Your task to perform on an android device: Search for the best books of all time on Goodreads Image 0: 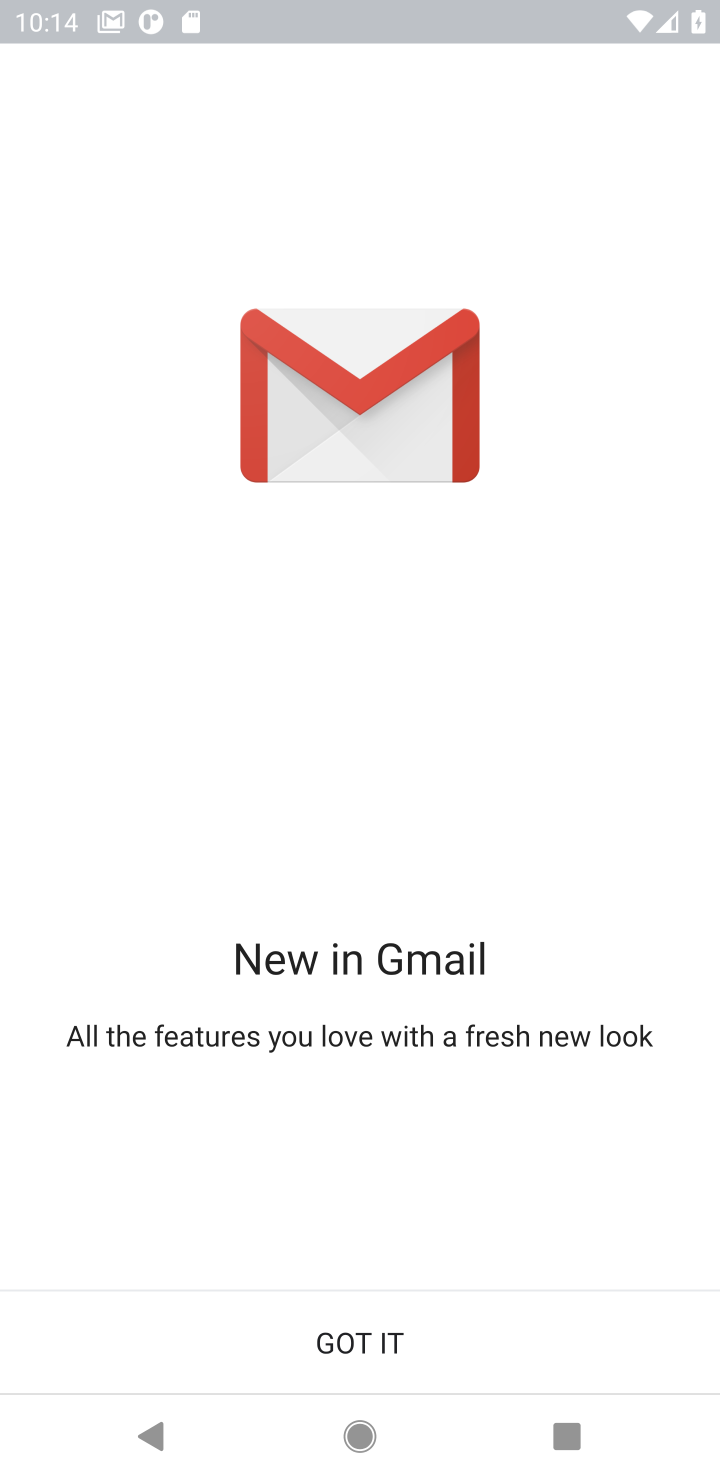
Step 0: press home button
Your task to perform on an android device: Search for the best books of all time on Goodreads Image 1: 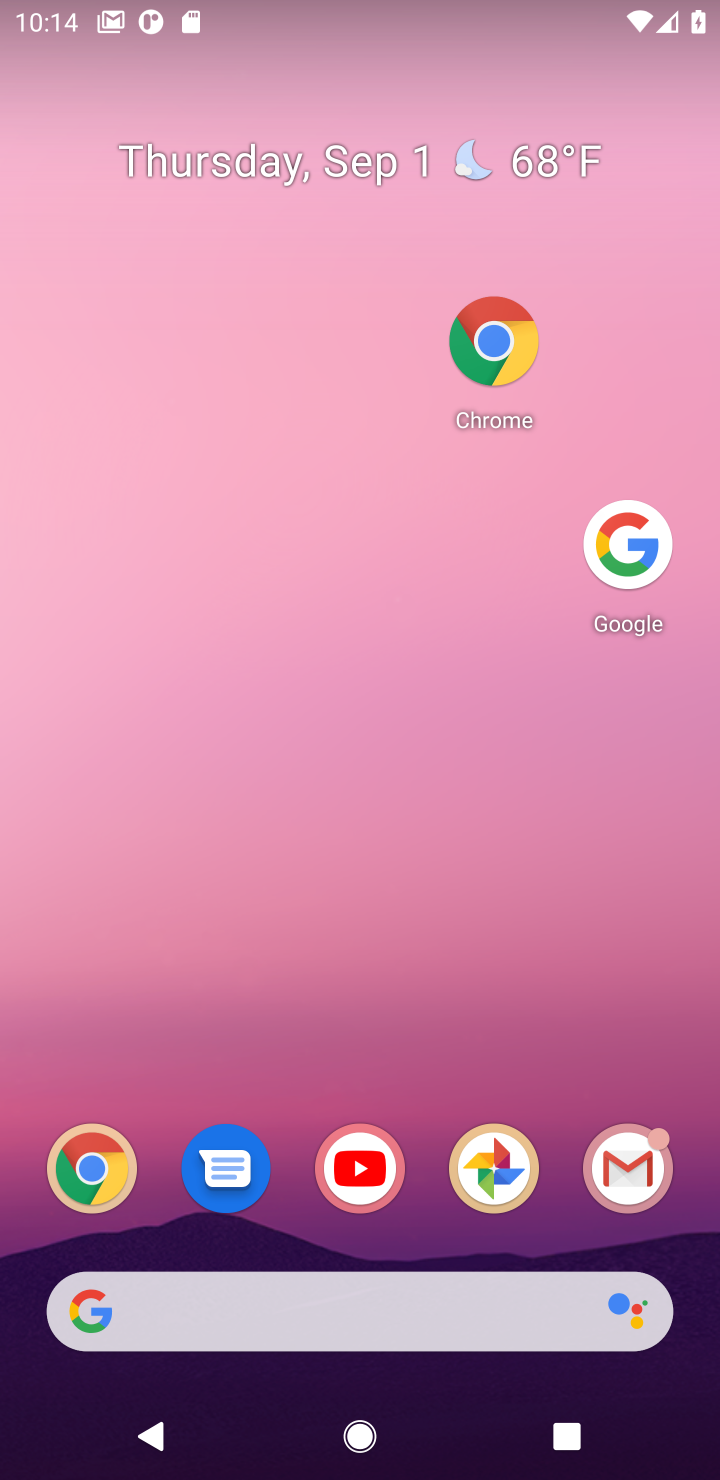
Step 1: click (427, 316)
Your task to perform on an android device: Search for the best books of all time on Goodreads Image 2: 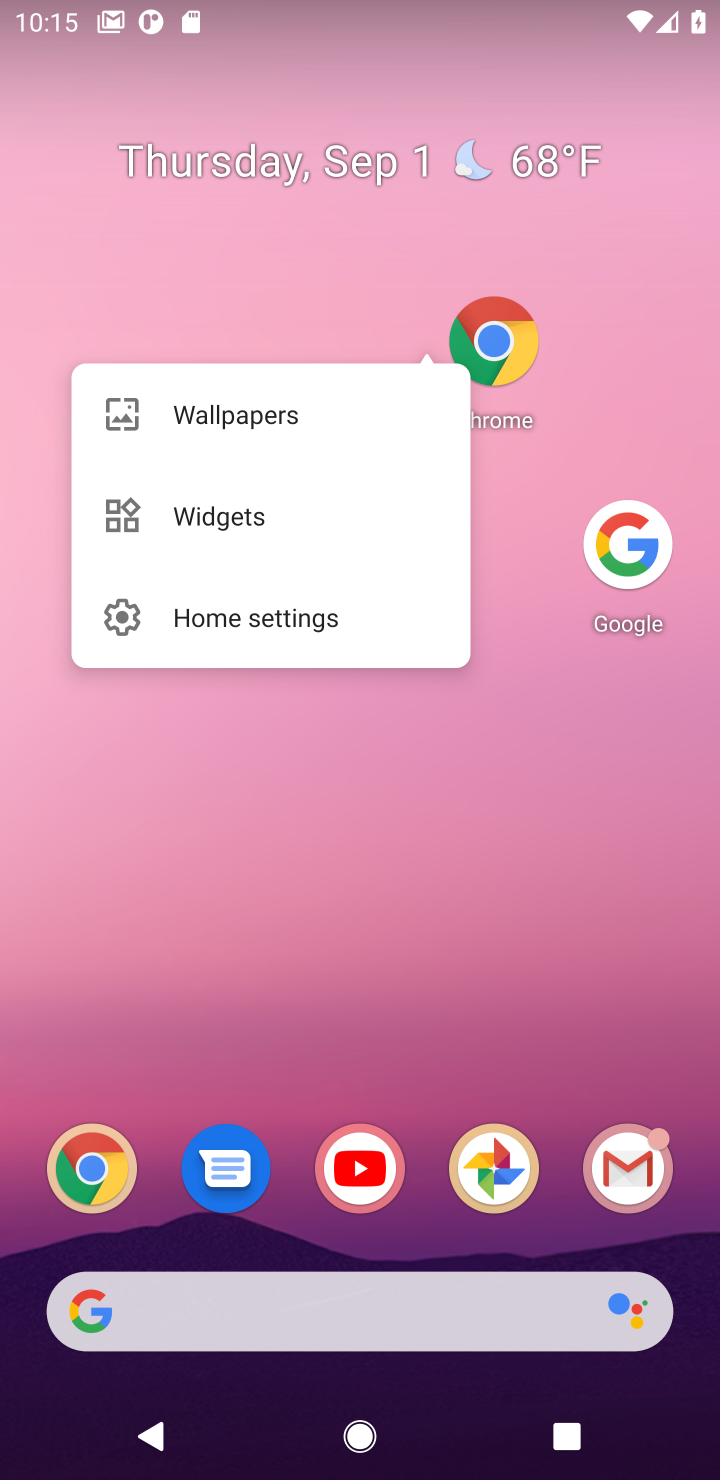
Step 2: click (633, 517)
Your task to perform on an android device: Search for the best books of all time on Goodreads Image 3: 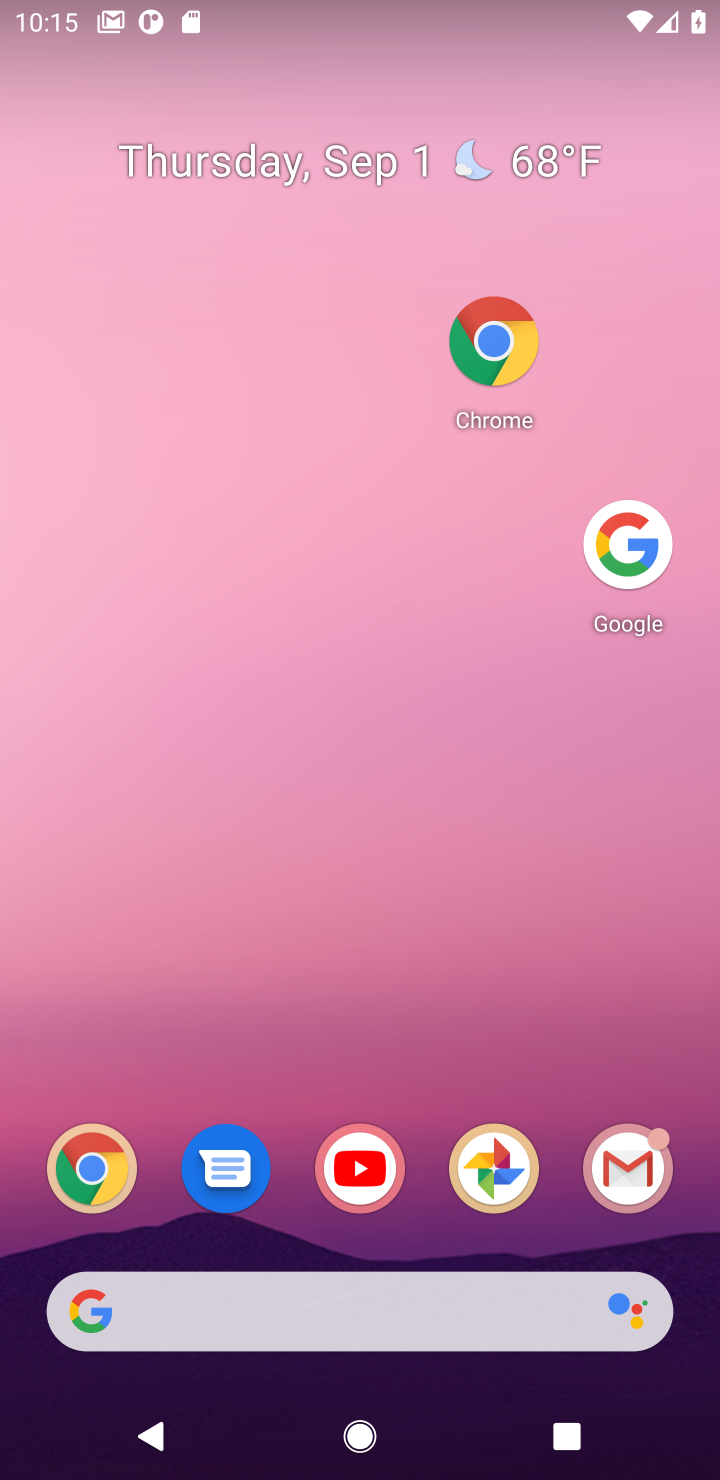
Step 3: click (629, 549)
Your task to perform on an android device: Search for the best books of all time on Goodreads Image 4: 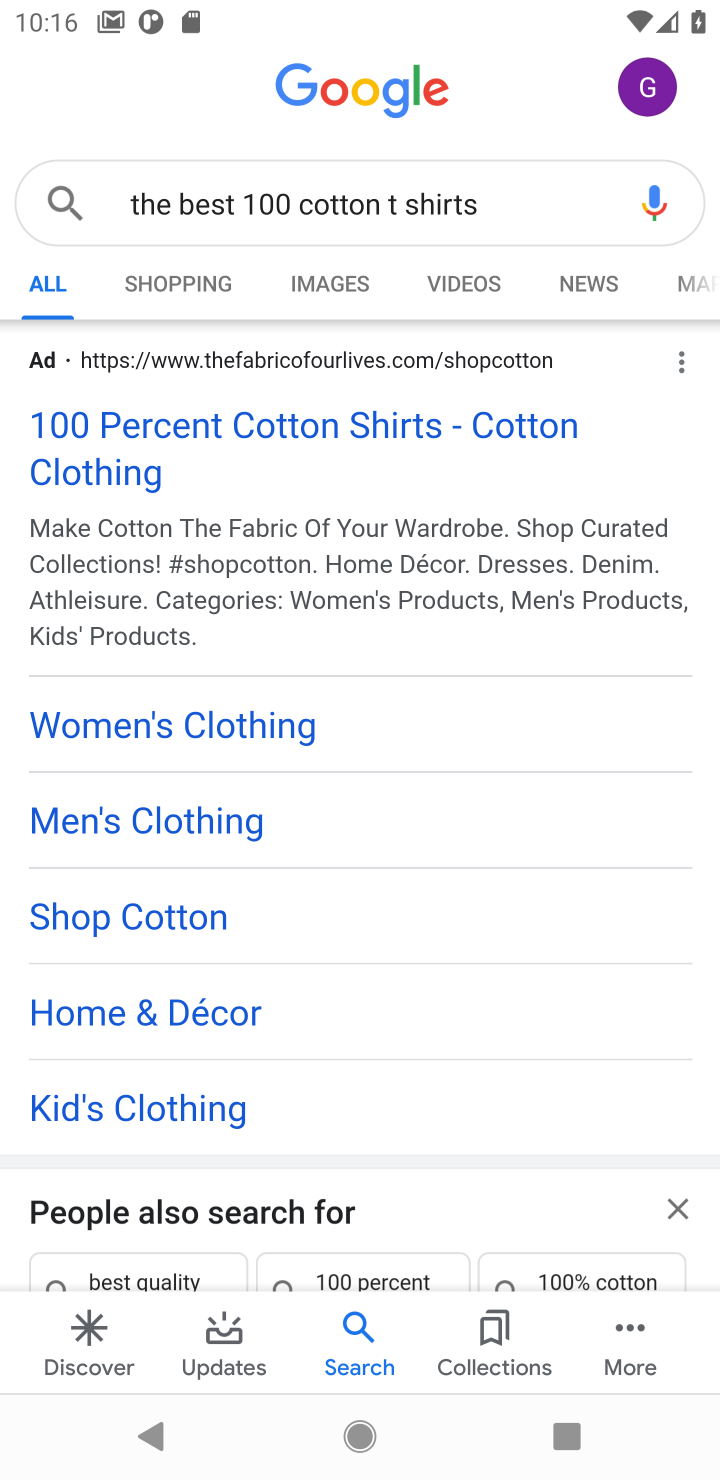
Step 4: click (265, 416)
Your task to perform on an android device: Search for the best books of all time on Goodreads Image 5: 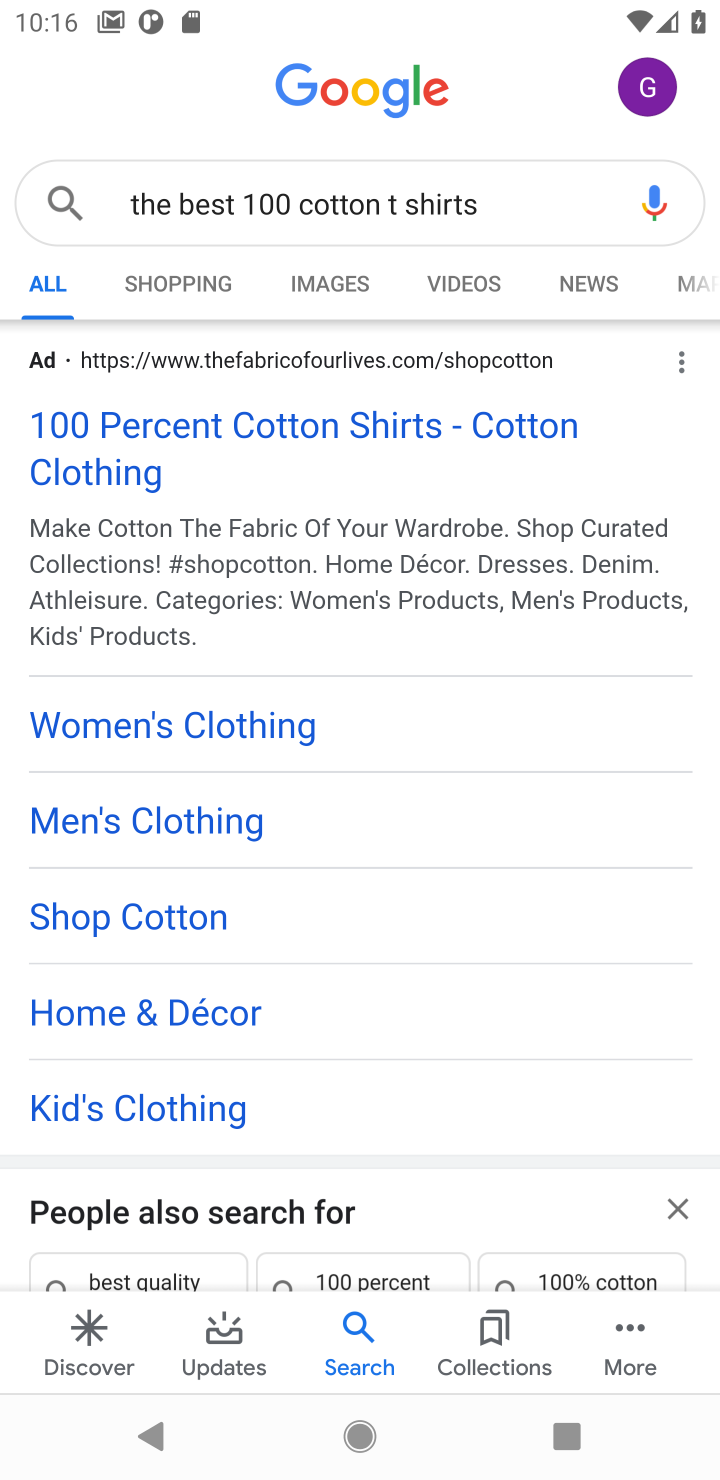
Step 5: click (318, 414)
Your task to perform on an android device: Search for the best books of all time on Goodreads Image 6: 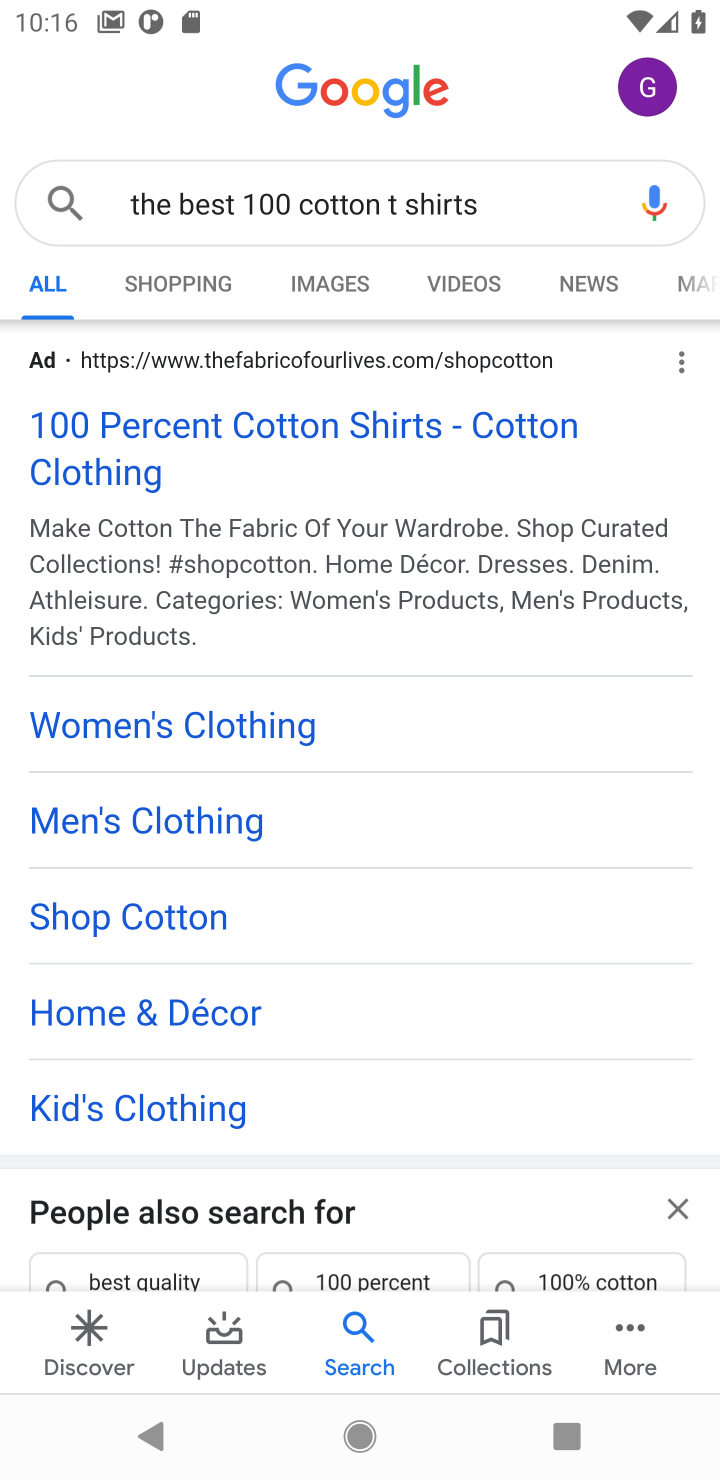
Step 6: click (287, 426)
Your task to perform on an android device: Search for the best books of all time on Goodreads Image 7: 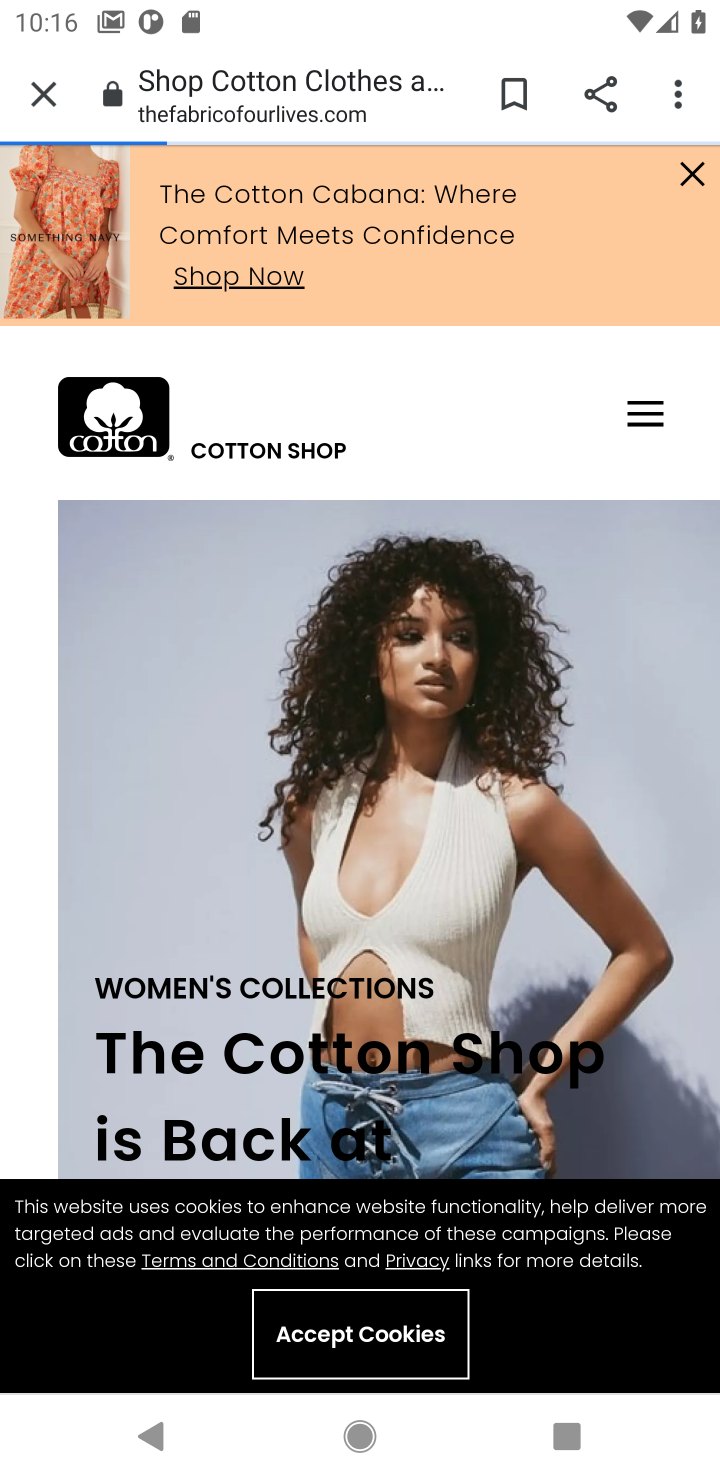
Step 7: click (45, 96)
Your task to perform on an android device: Search for the best books of all time on Goodreads Image 8: 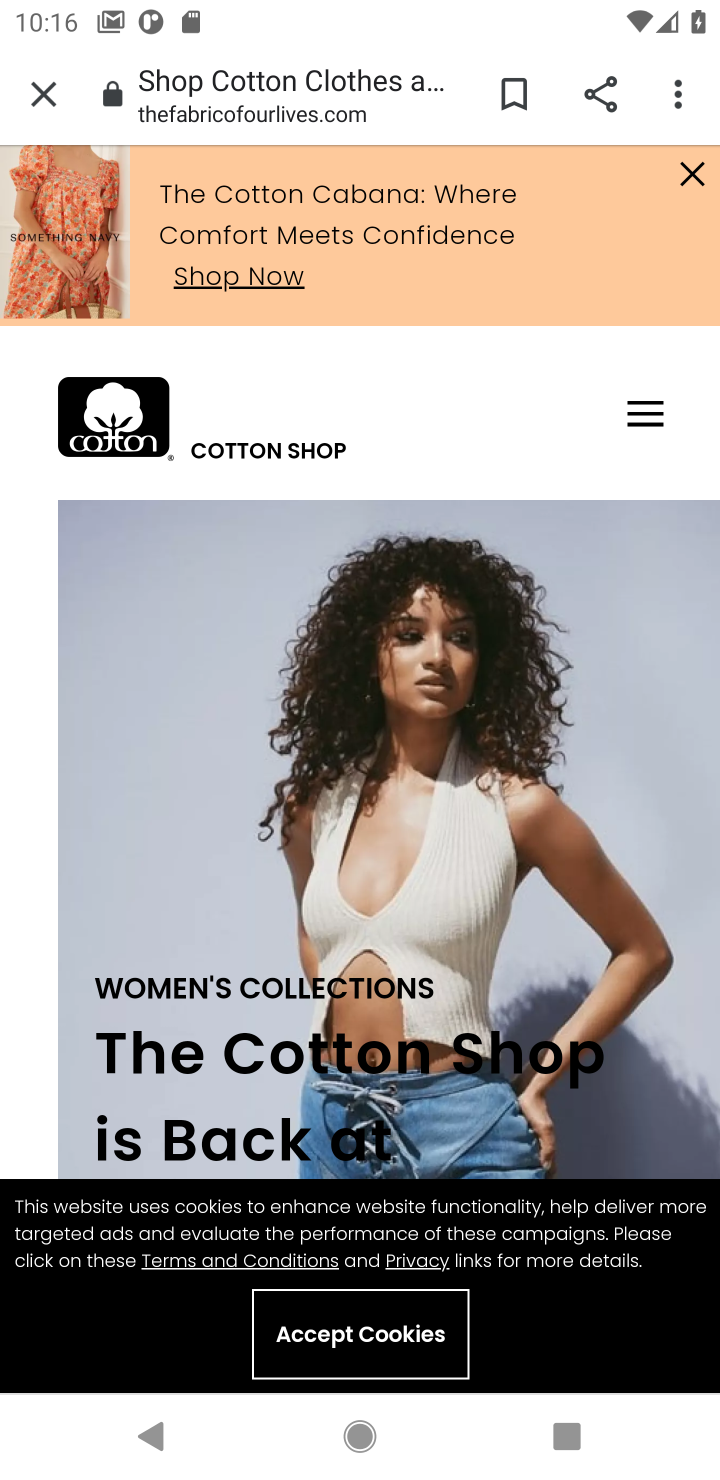
Step 8: click (683, 110)
Your task to perform on an android device: Search for the best books of all time on Goodreads Image 9: 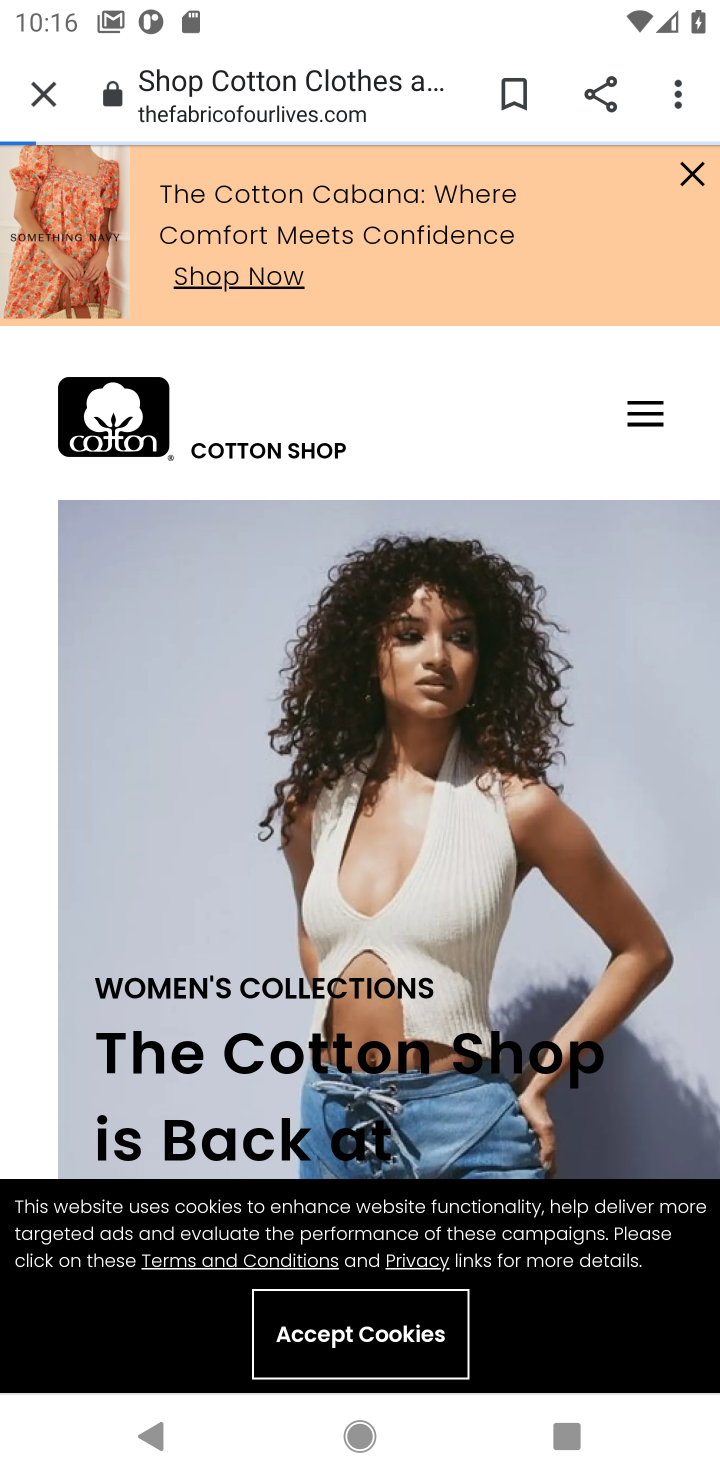
Step 9: click (679, 84)
Your task to perform on an android device: Search for the best books of all time on Goodreads Image 10: 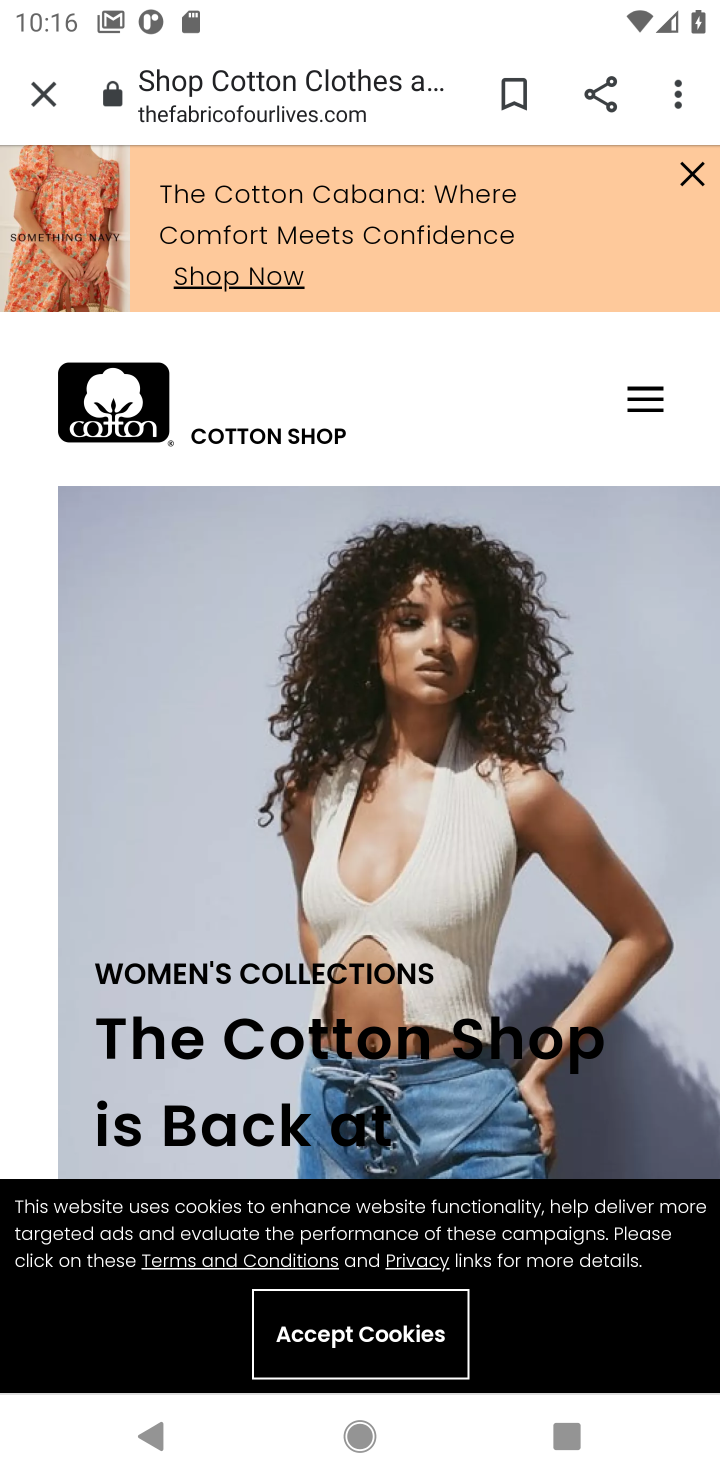
Step 10: click (701, 184)
Your task to perform on an android device: Search for the best books of all time on Goodreads Image 11: 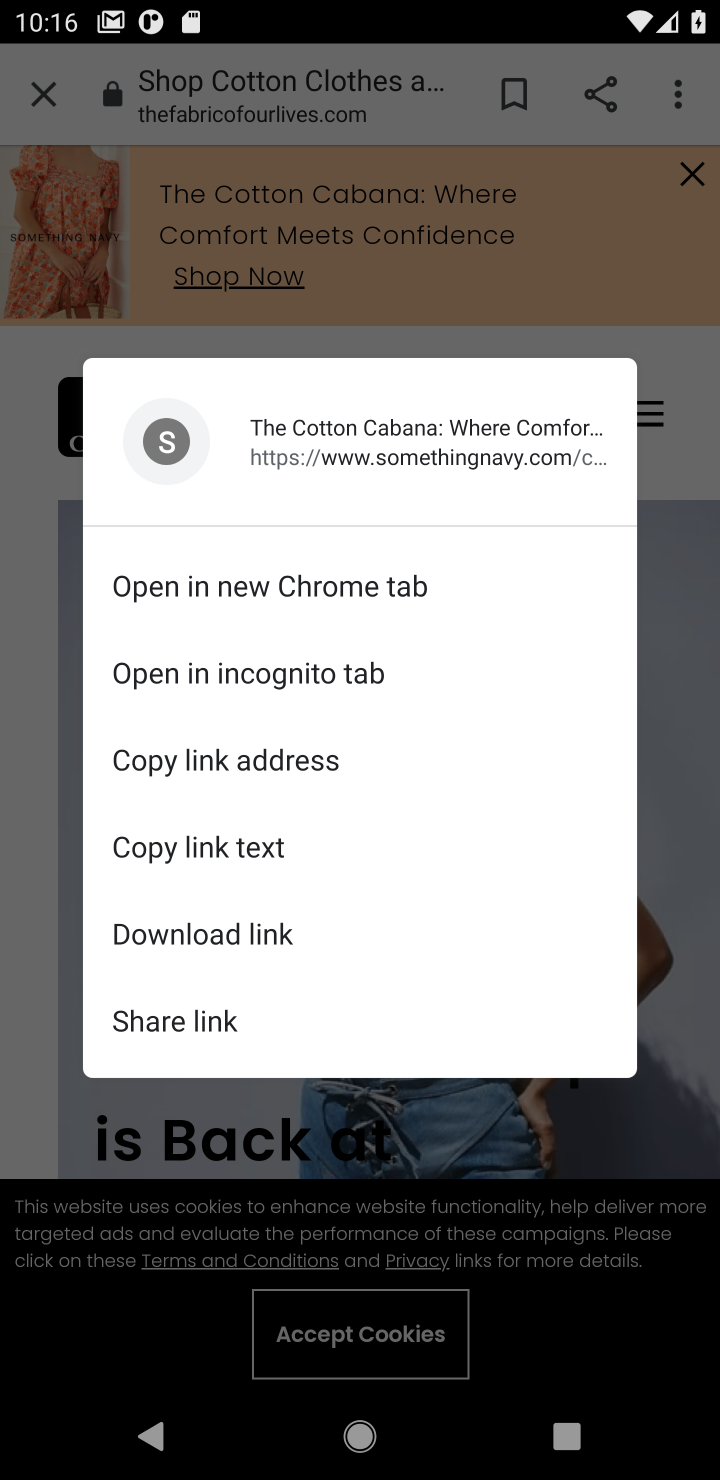
Step 11: click (329, 584)
Your task to perform on an android device: Search for the best books of all time on Goodreads Image 12: 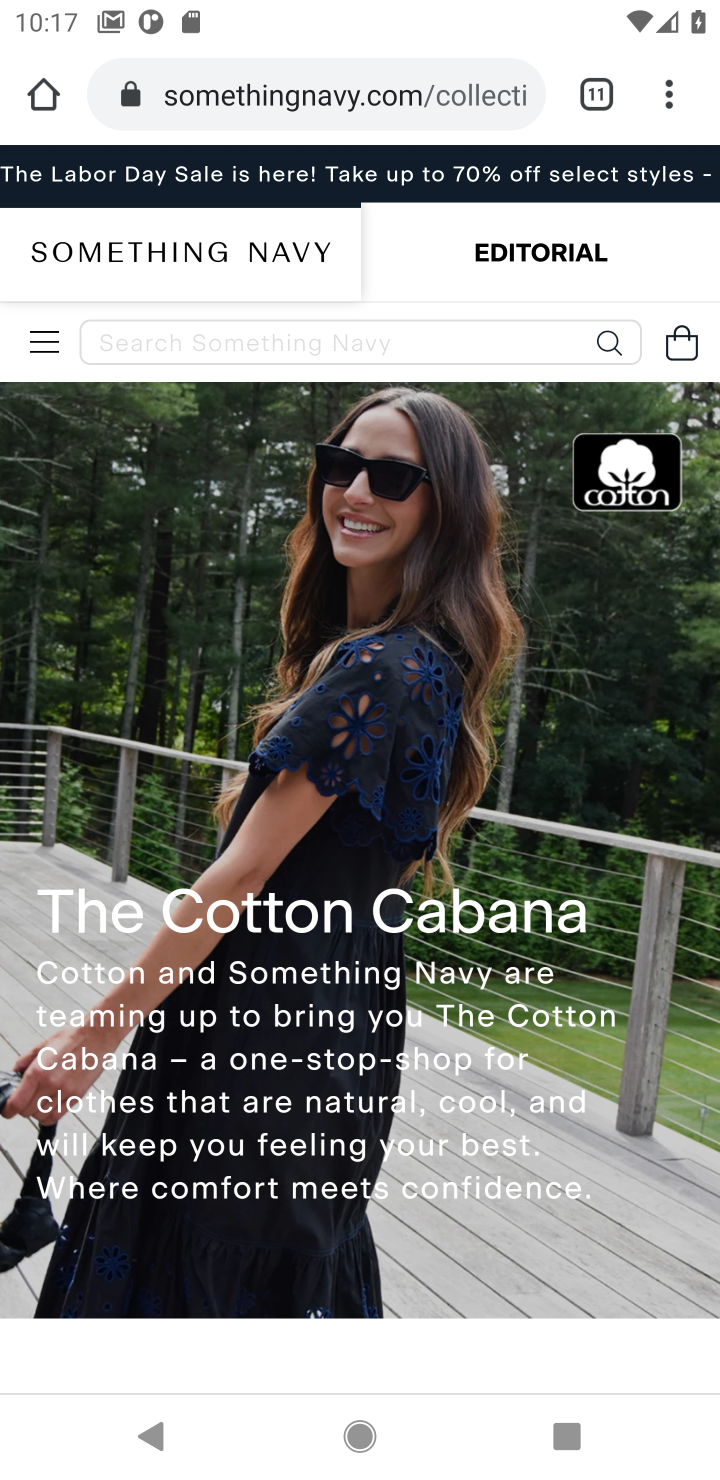
Step 12: click (667, 85)
Your task to perform on an android device: Search for the best books of all time on Goodreads Image 13: 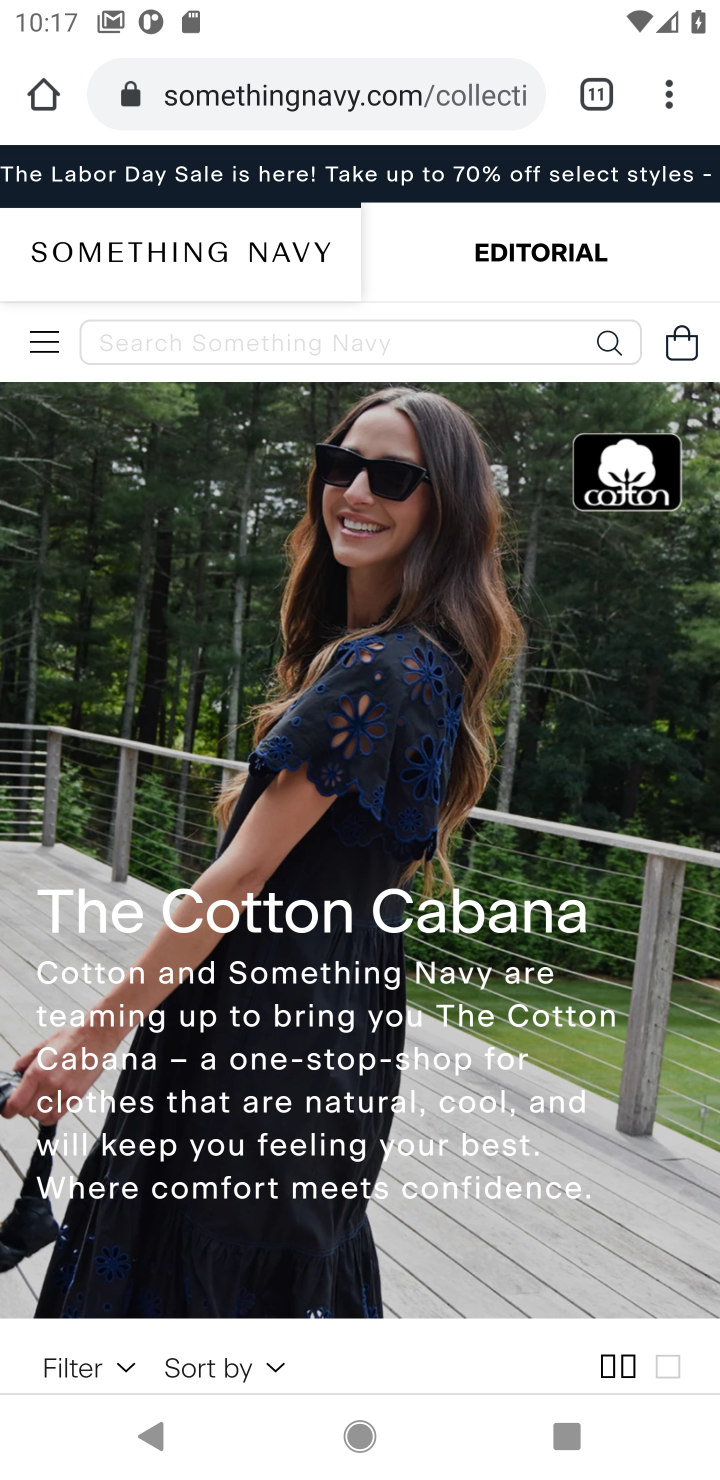
Step 13: click (686, 91)
Your task to perform on an android device: Search for the best books of all time on Goodreads Image 14: 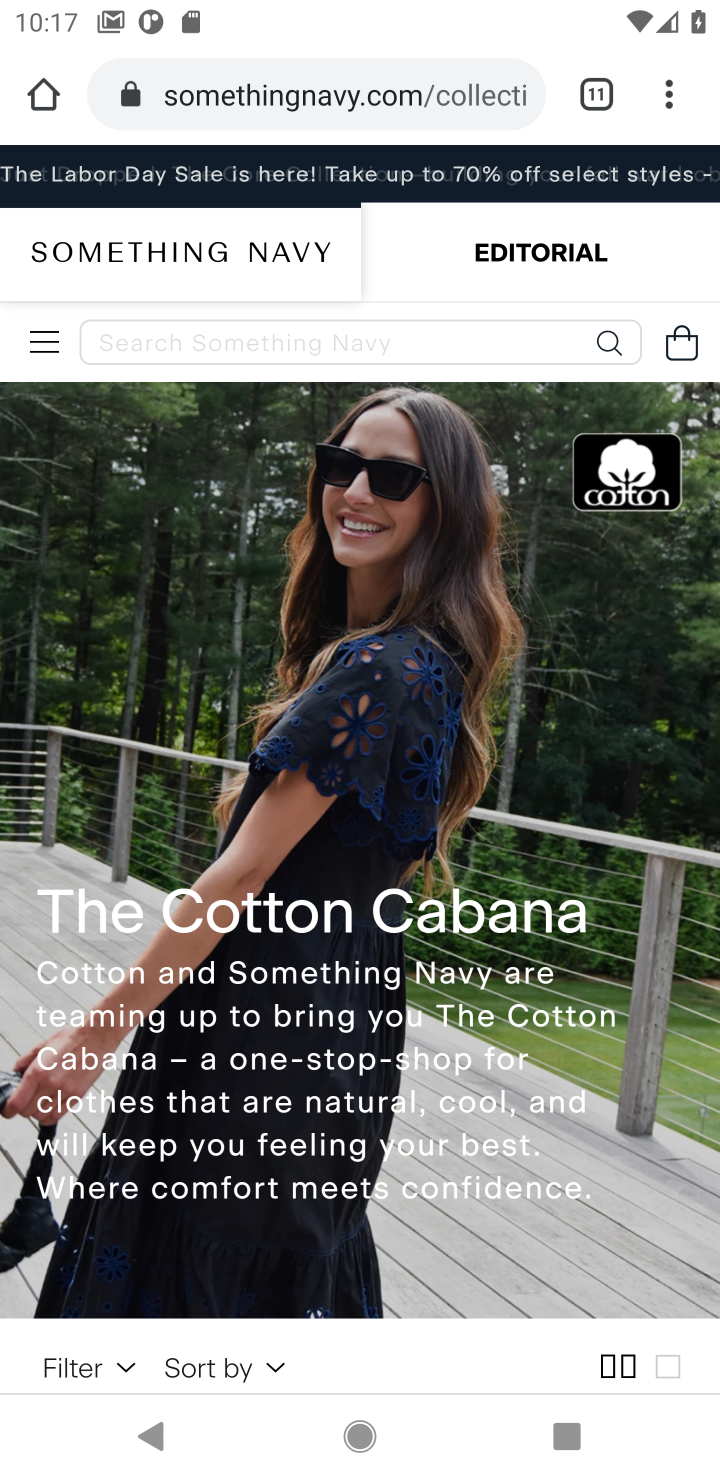
Step 14: press home button
Your task to perform on an android device: Search for the best books of all time on Goodreads Image 15: 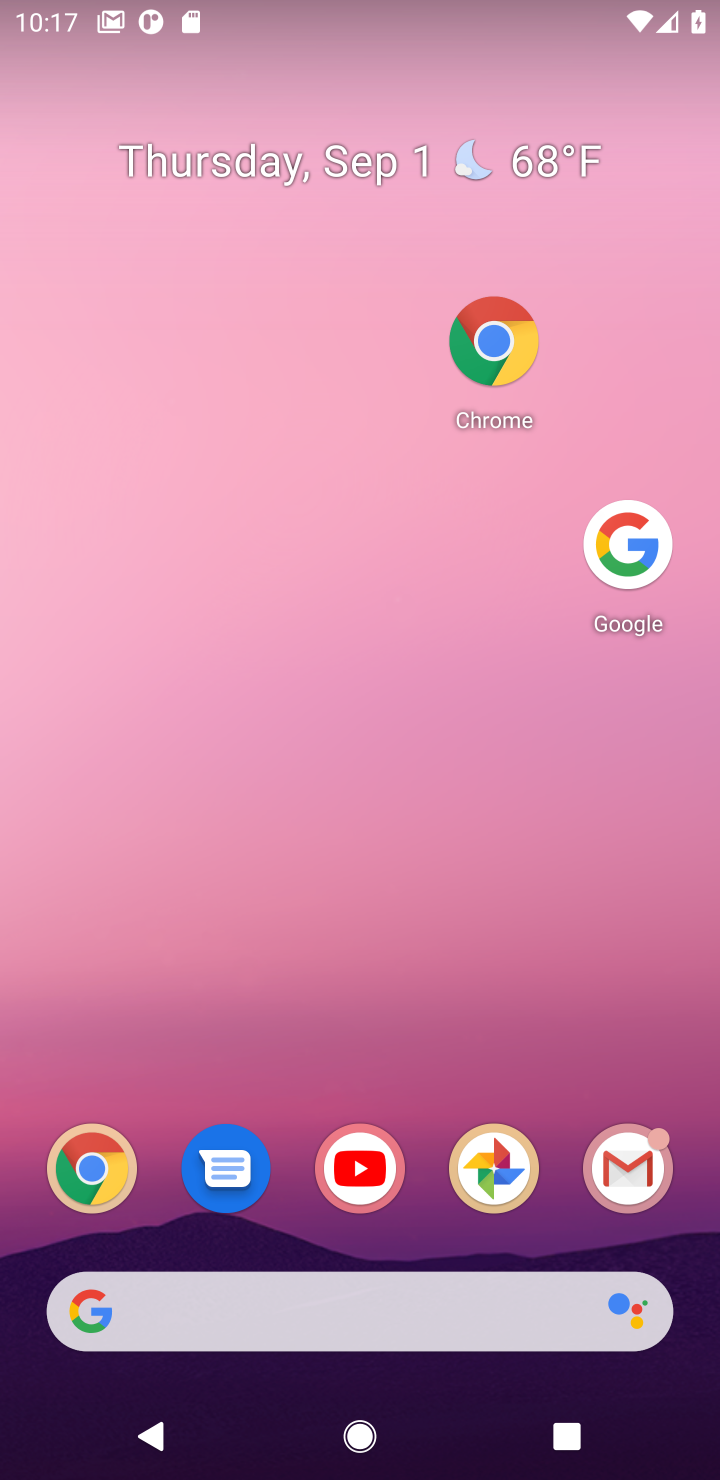
Step 15: click (628, 533)
Your task to perform on an android device: Search for the best books of all time on Goodreads Image 16: 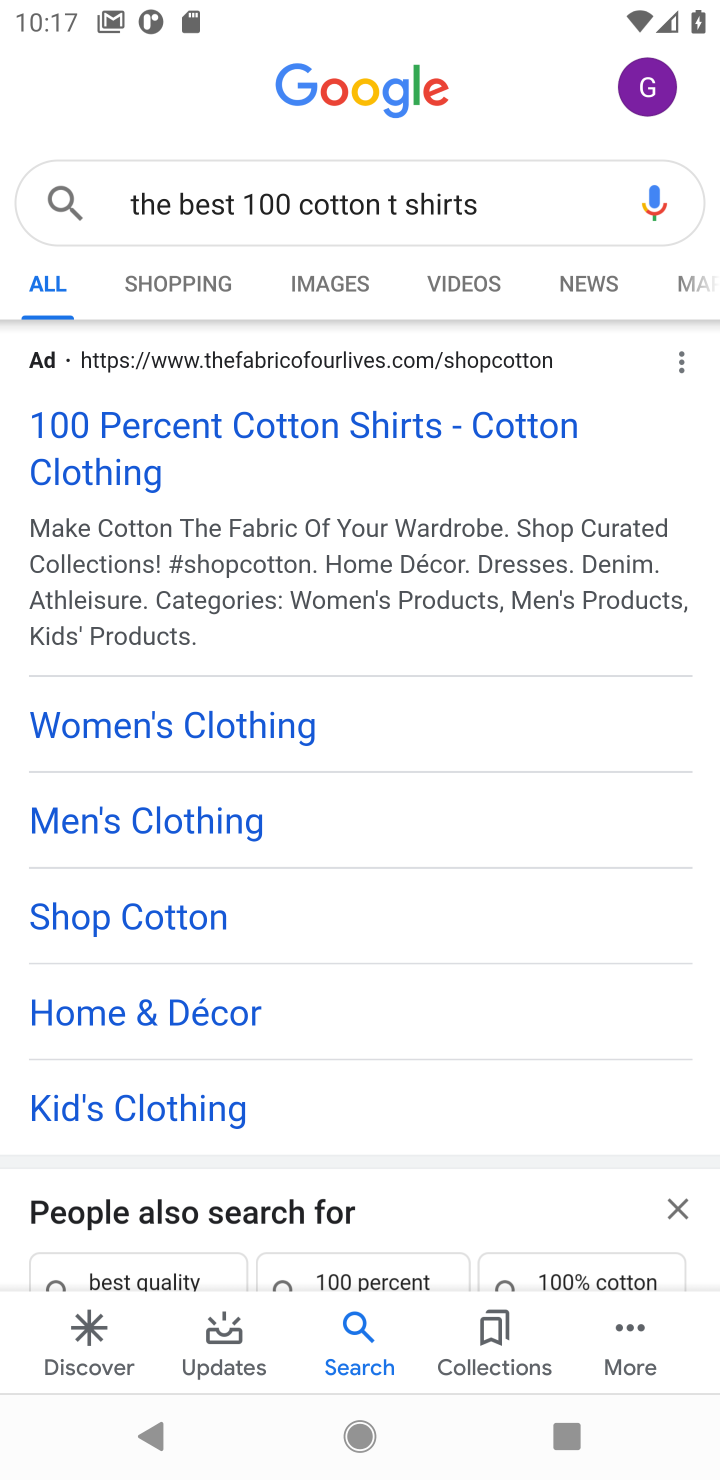
Step 16: click (541, 217)
Your task to perform on an android device: Search for the best books of all time on Goodreads Image 17: 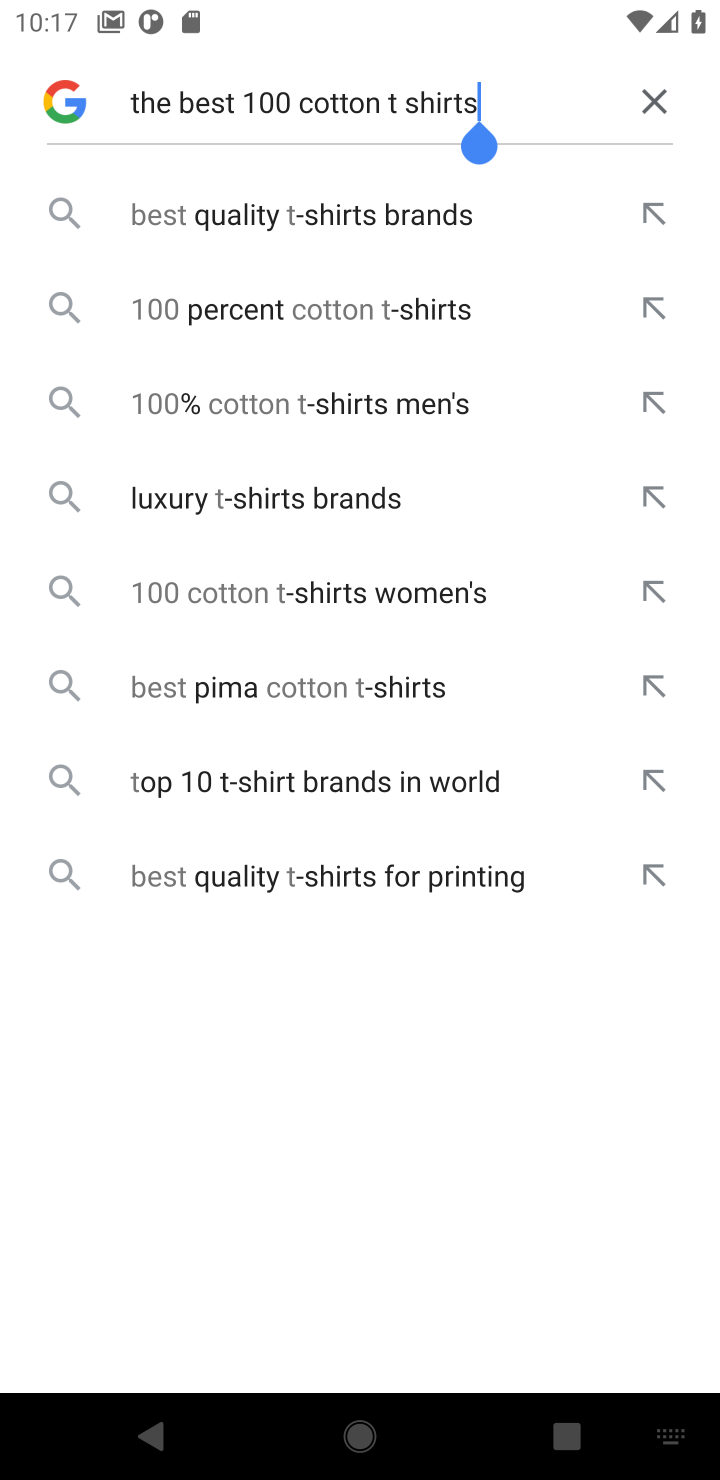
Step 17: click (671, 90)
Your task to perform on an android device: Search for the best books of all time on Goodreads Image 18: 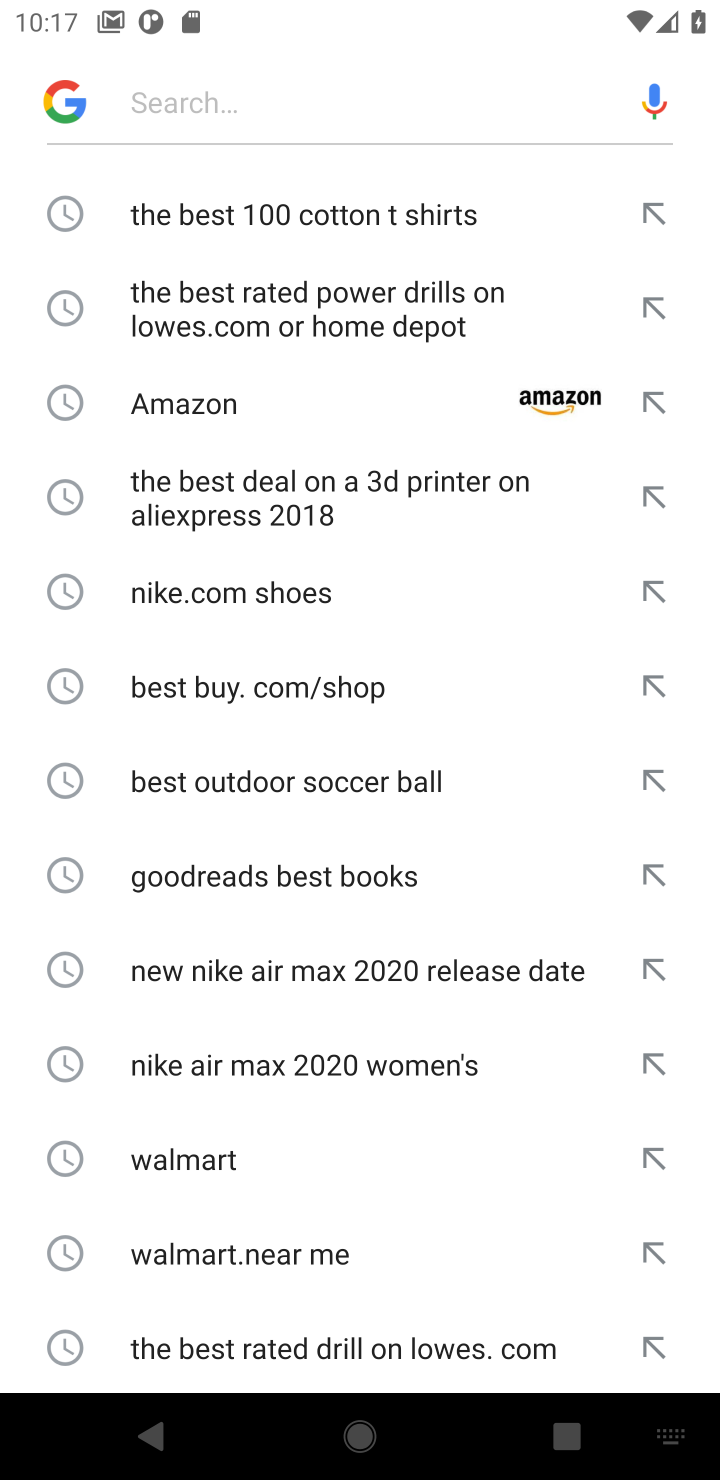
Step 18: click (345, 95)
Your task to perform on an android device: Search for the best books of all time on Goodreads Image 19: 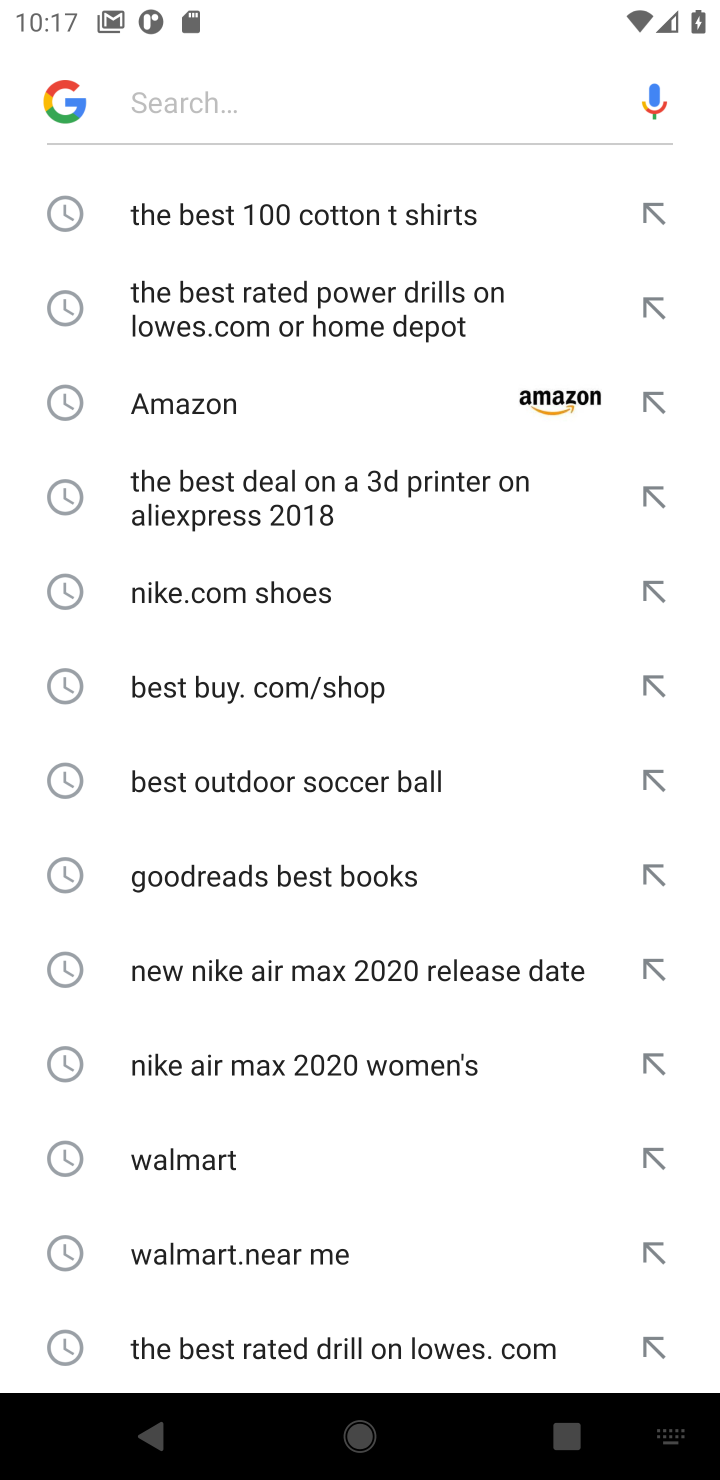
Step 19: type "Goodreads "
Your task to perform on an android device: Search for the best books of all time on Goodreads Image 20: 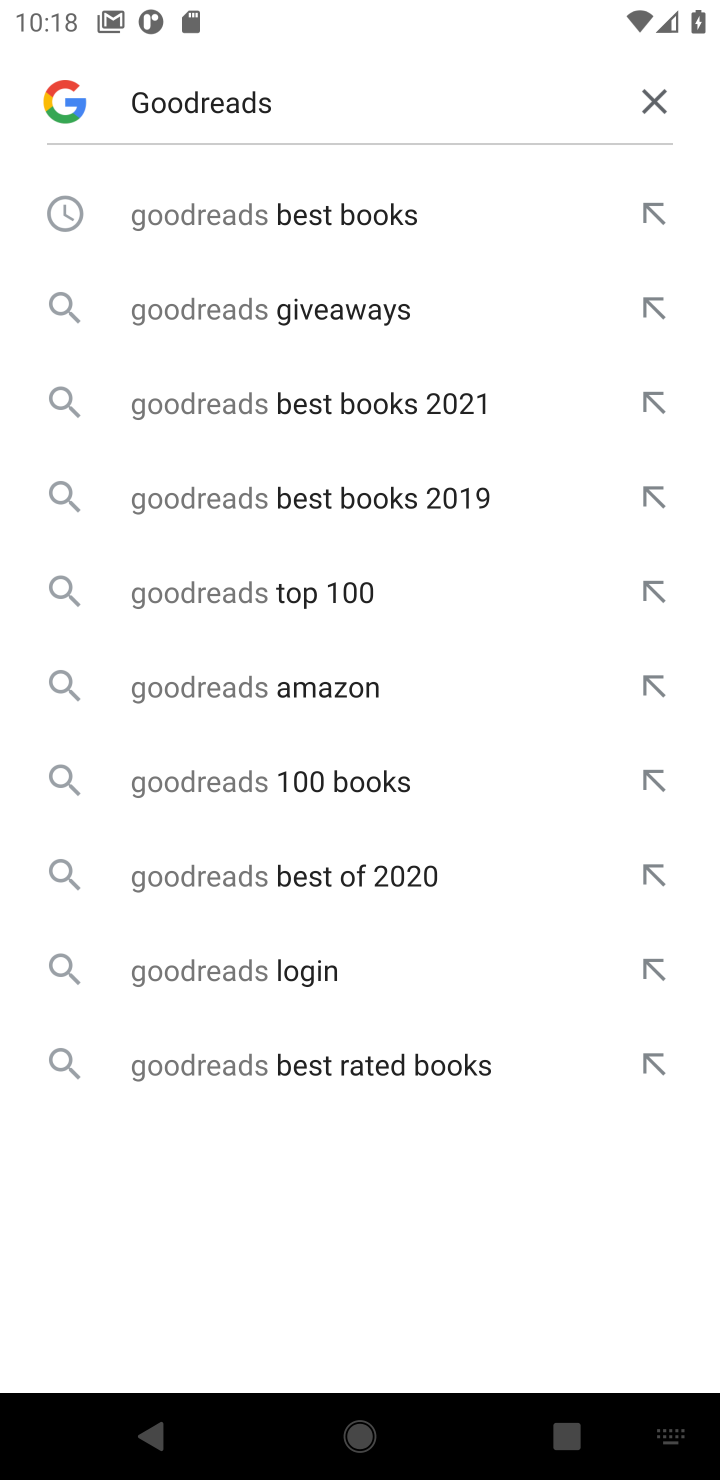
Step 20: click (235, 205)
Your task to perform on an android device: Search for the best books of all time on Goodreads Image 21: 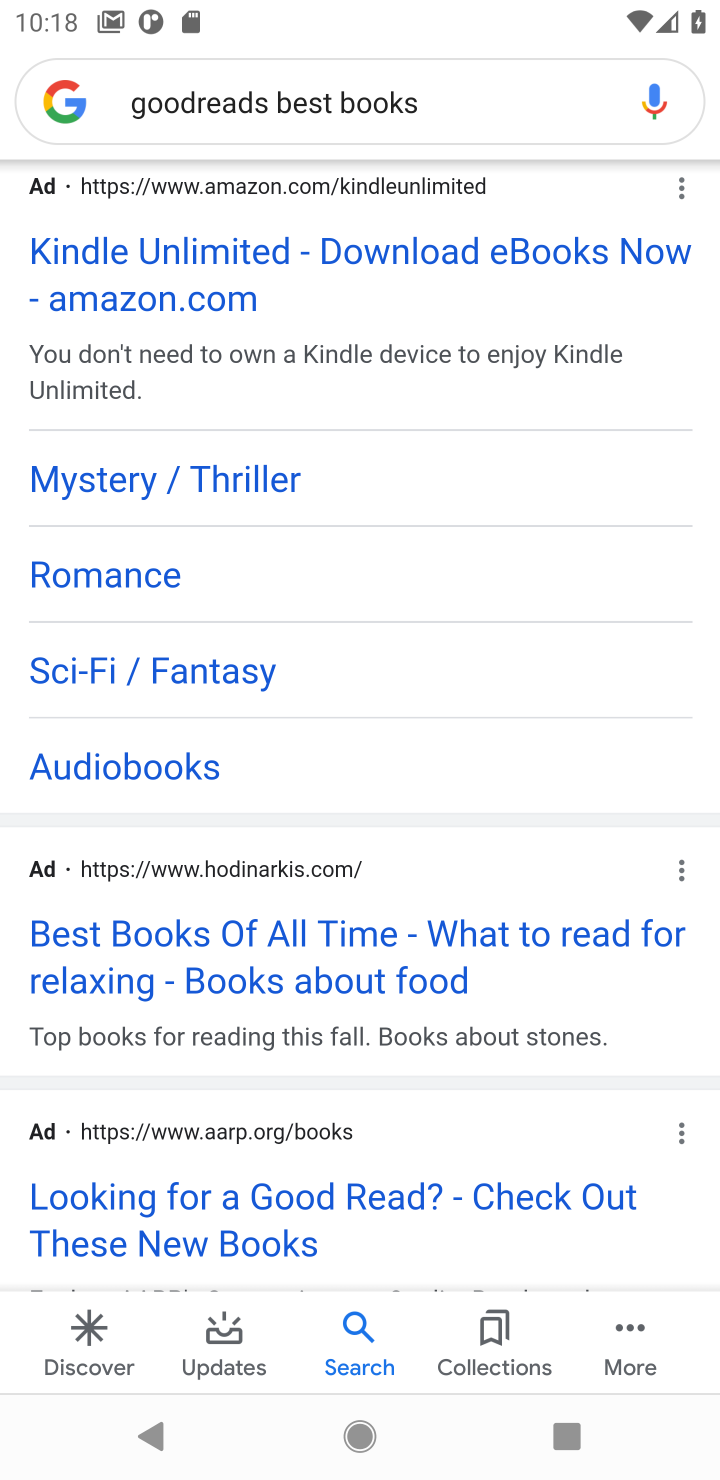
Step 21: drag from (221, 300) to (234, 1262)
Your task to perform on an android device: Search for the best books of all time on Goodreads Image 22: 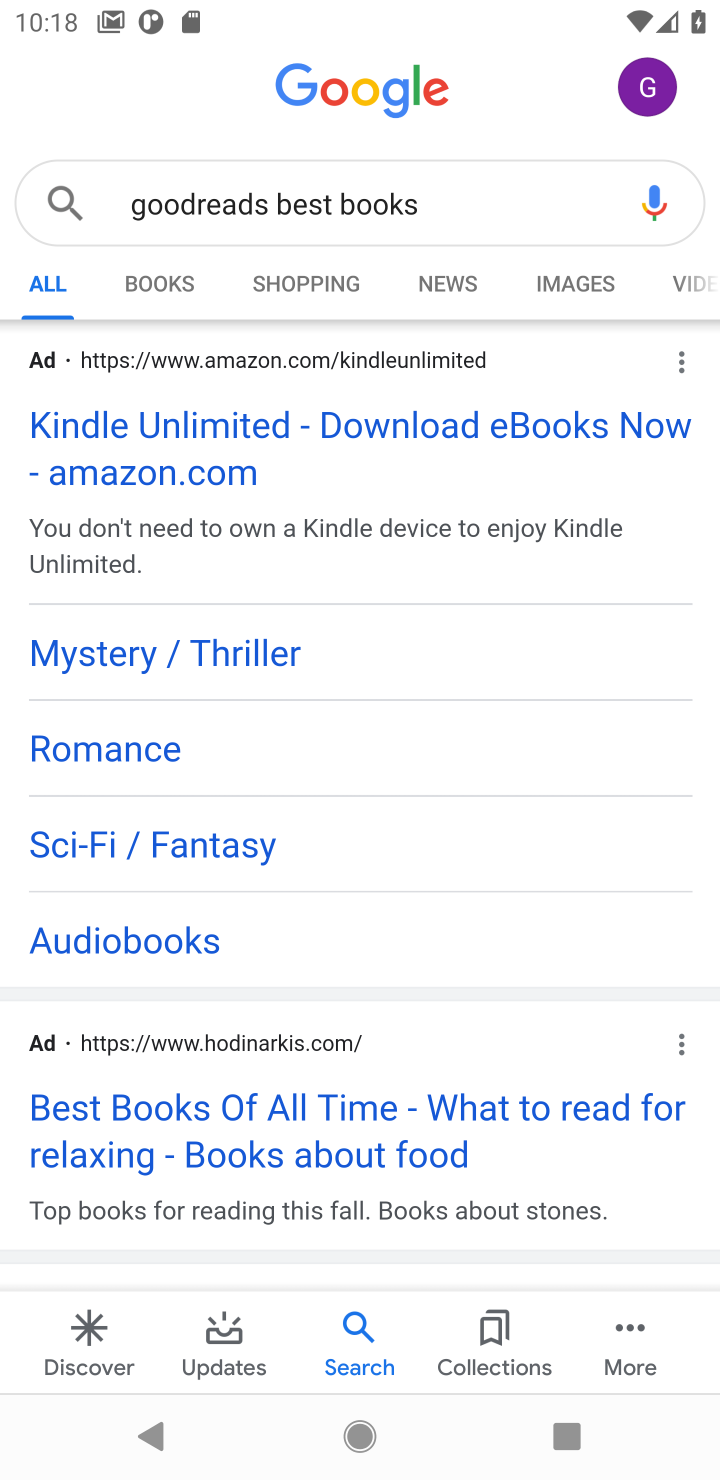
Step 22: click (498, 200)
Your task to perform on an android device: Search for the best books of all time on Goodreads Image 23: 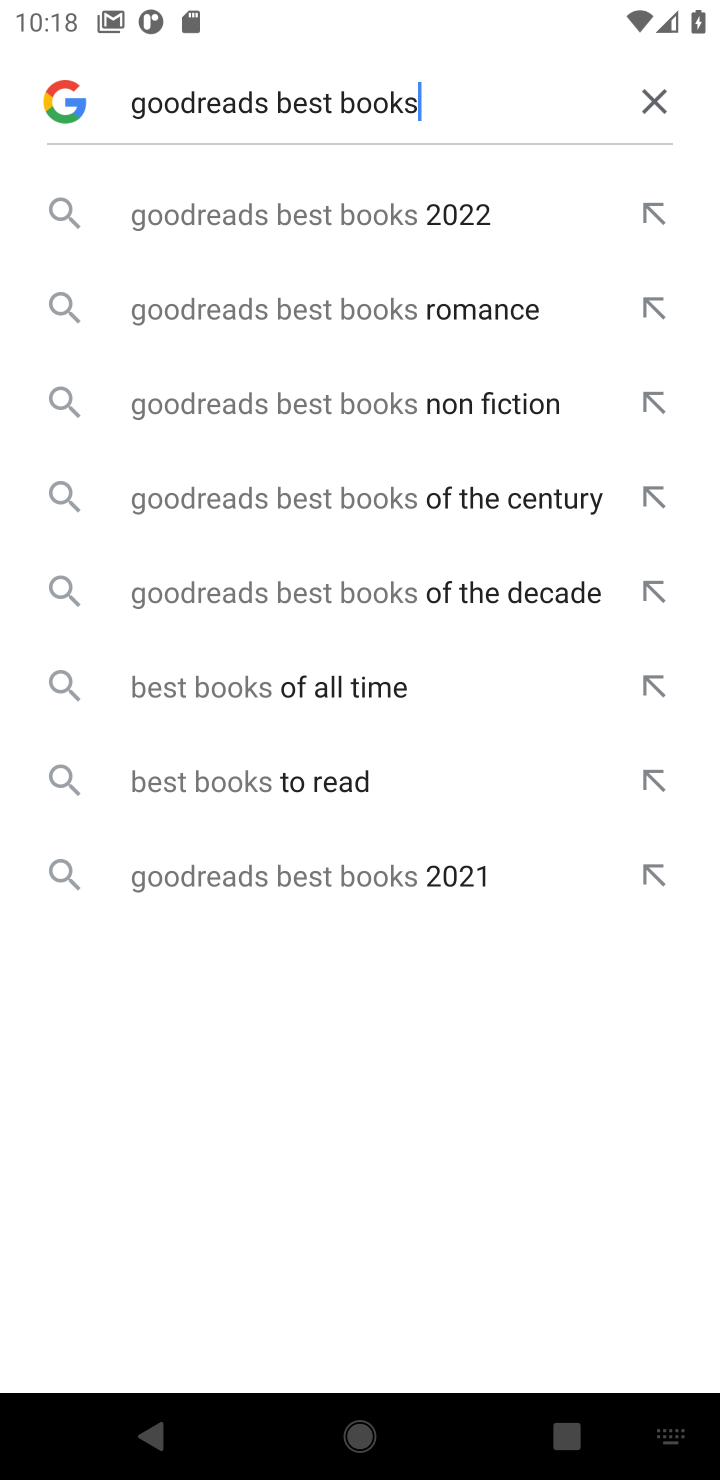
Step 23: drag from (263, 87) to (394, 105)
Your task to perform on an android device: Search for the best books of all time on Goodreads Image 24: 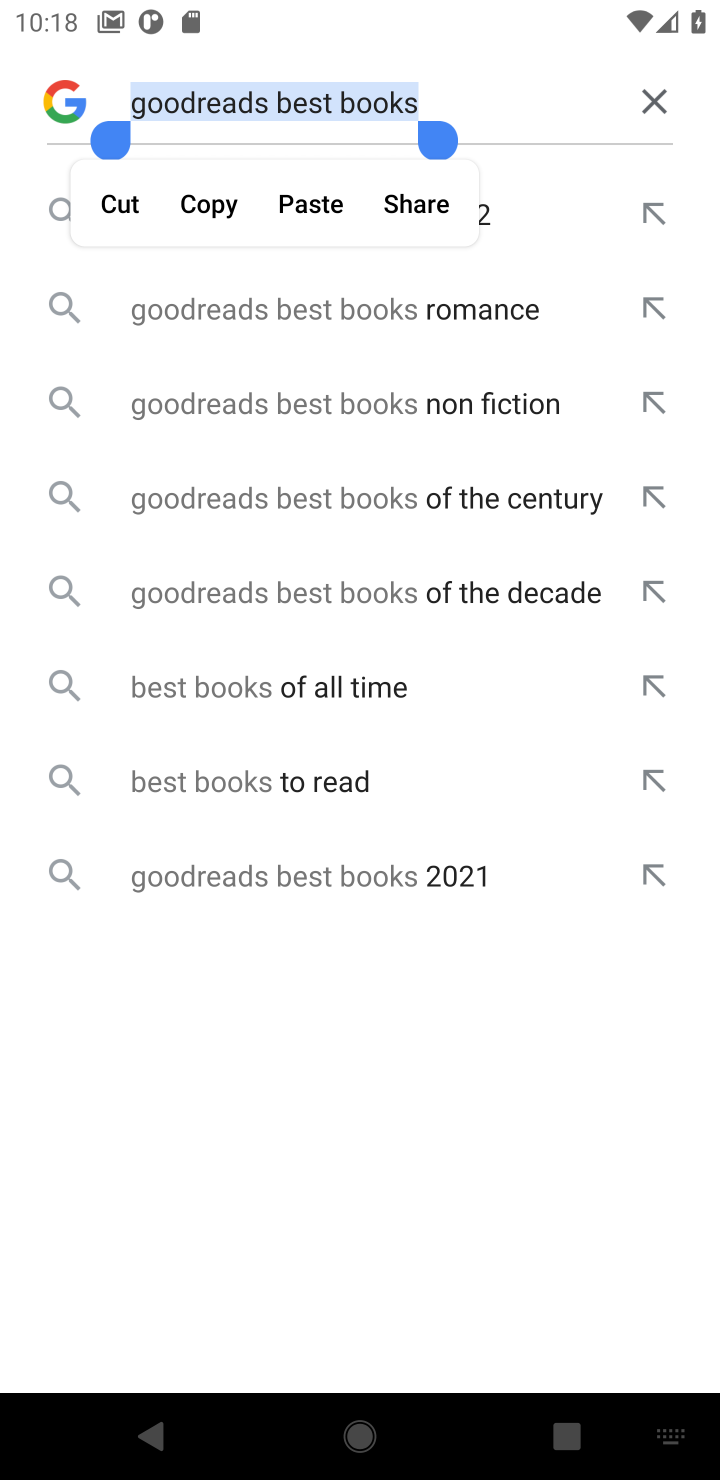
Step 24: click (116, 198)
Your task to perform on an android device: Search for the best books of all time on Goodreads Image 25: 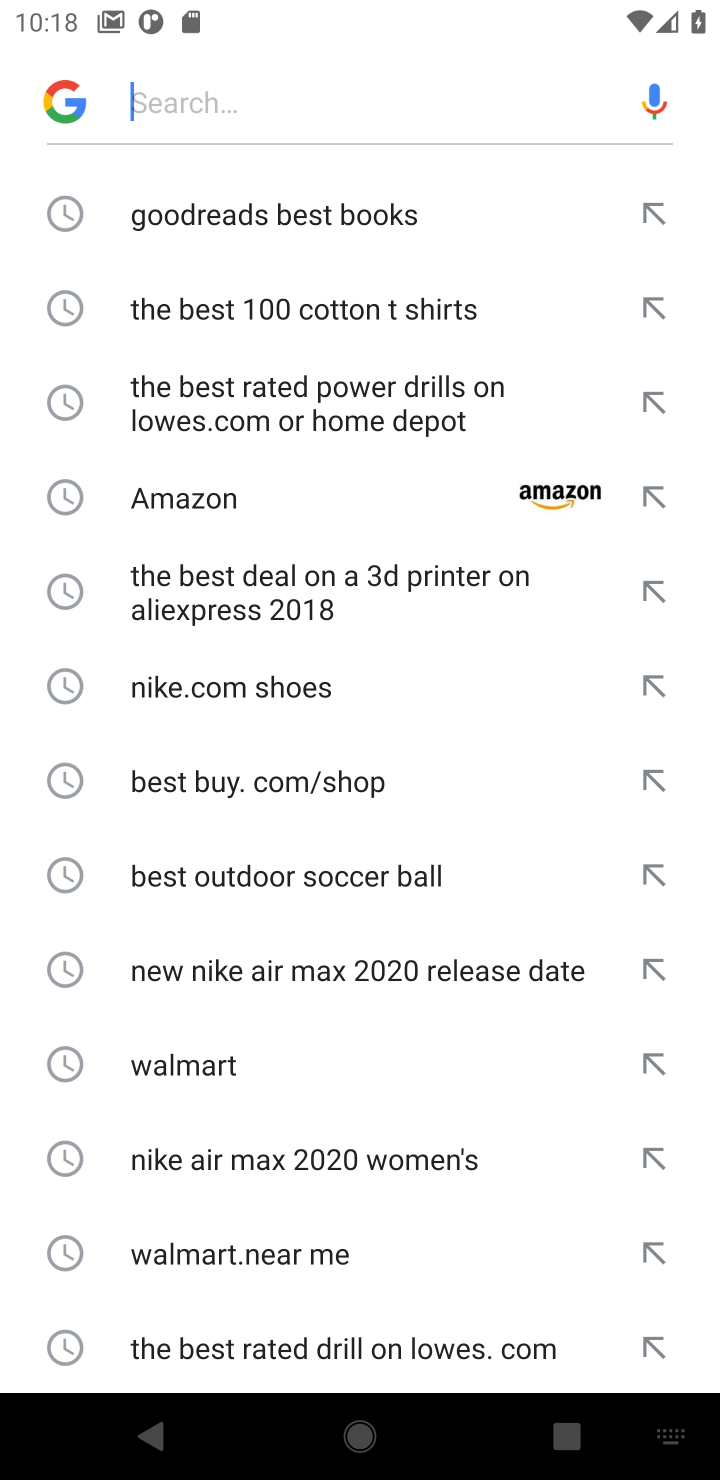
Step 25: click (317, 73)
Your task to perform on an android device: Search for the best books of all time on Goodreads Image 26: 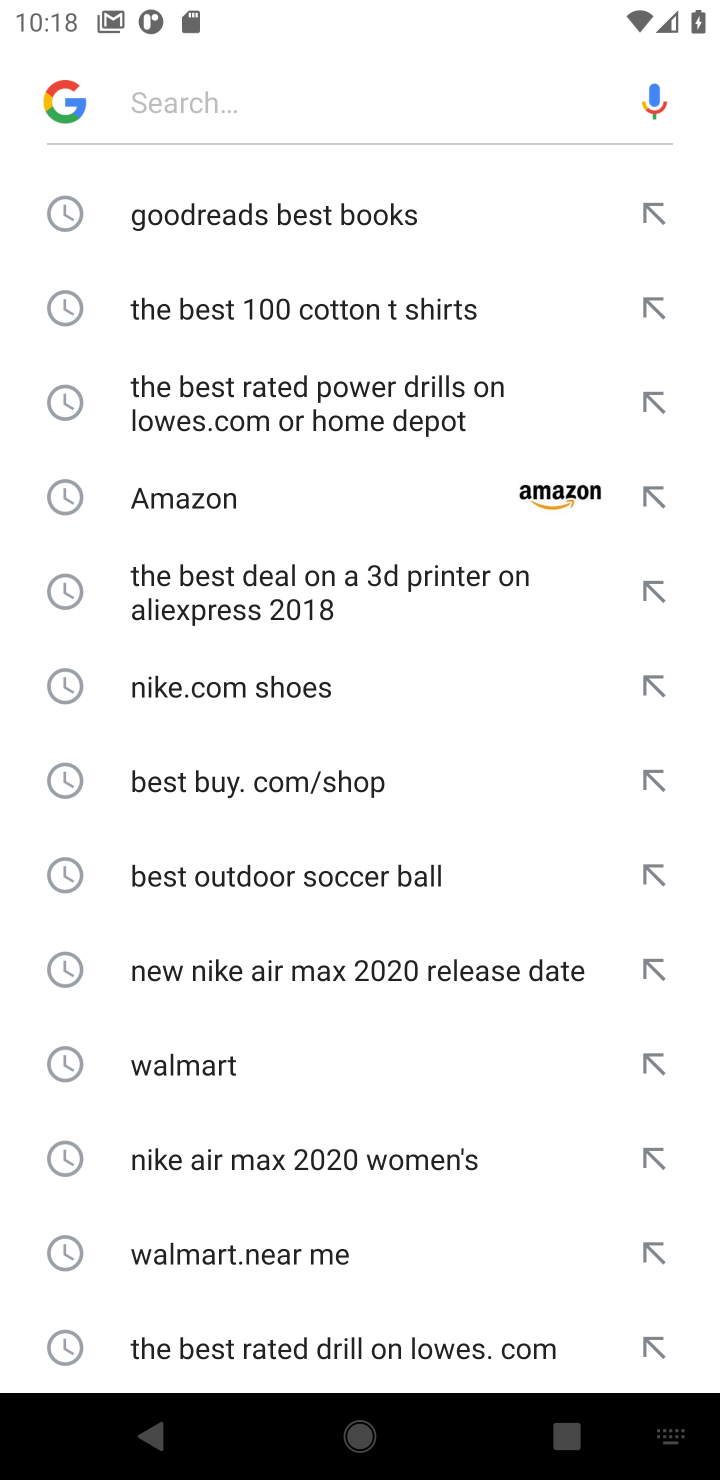
Step 26: type " Goodreads "
Your task to perform on an android device: Search for the best books of all time on Goodreads Image 27: 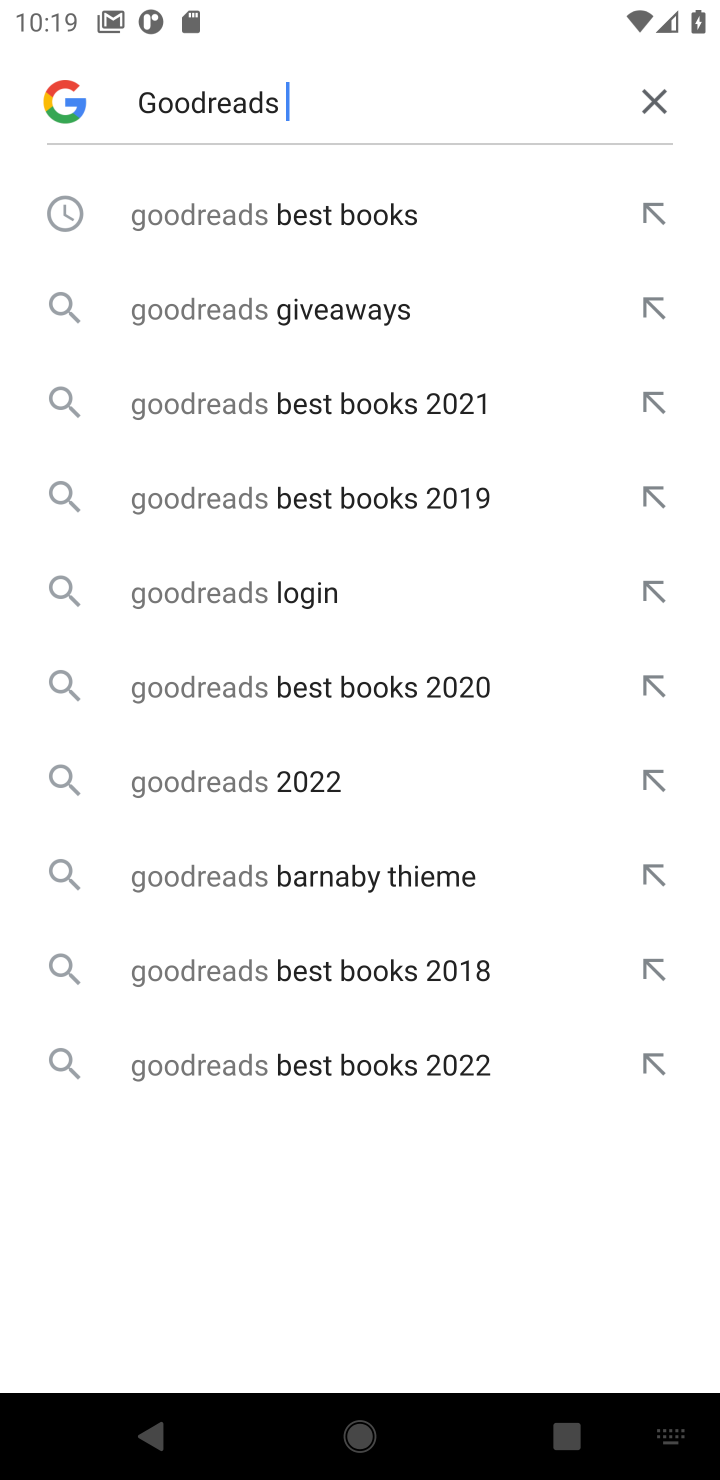
Step 27: click (231, 212)
Your task to perform on an android device: Search for the best books of all time on Goodreads Image 28: 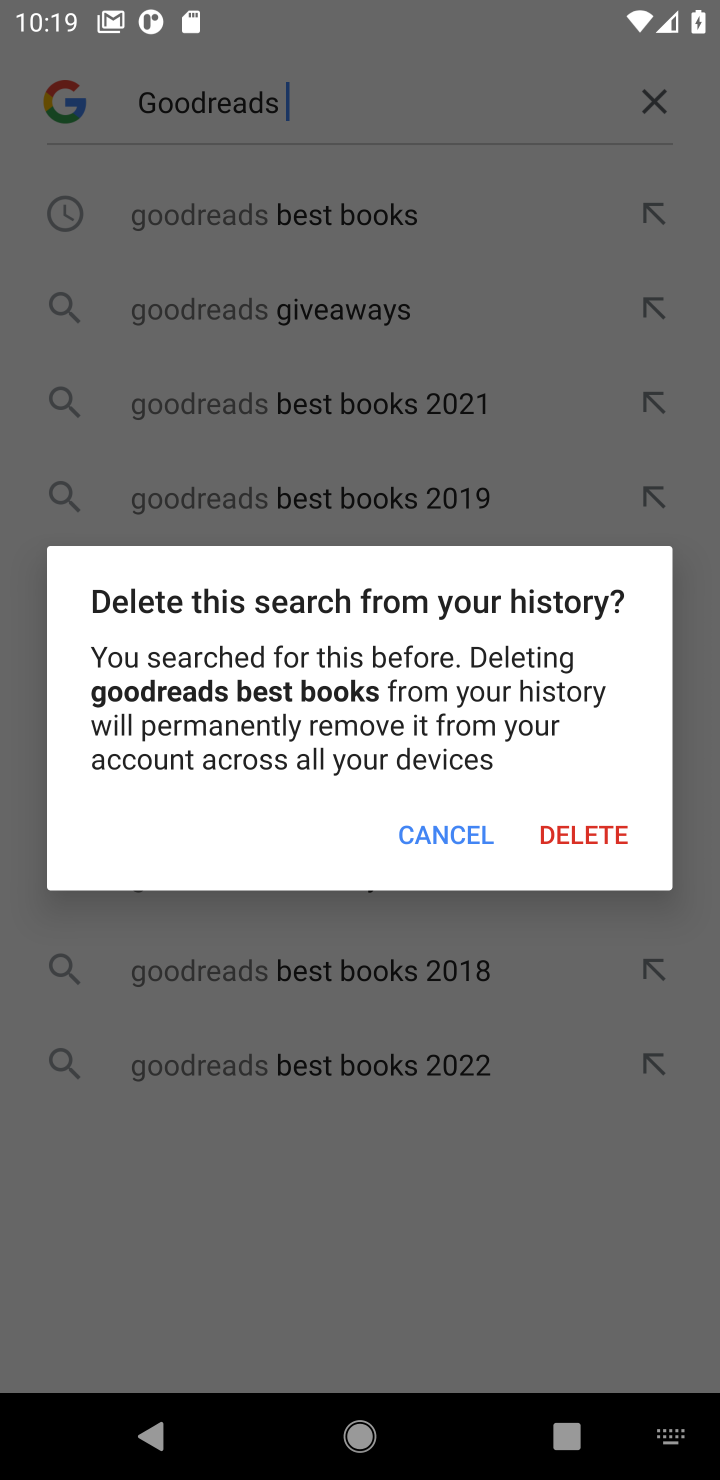
Step 28: click (440, 834)
Your task to perform on an android device: Search for the best books of all time on Goodreads Image 29: 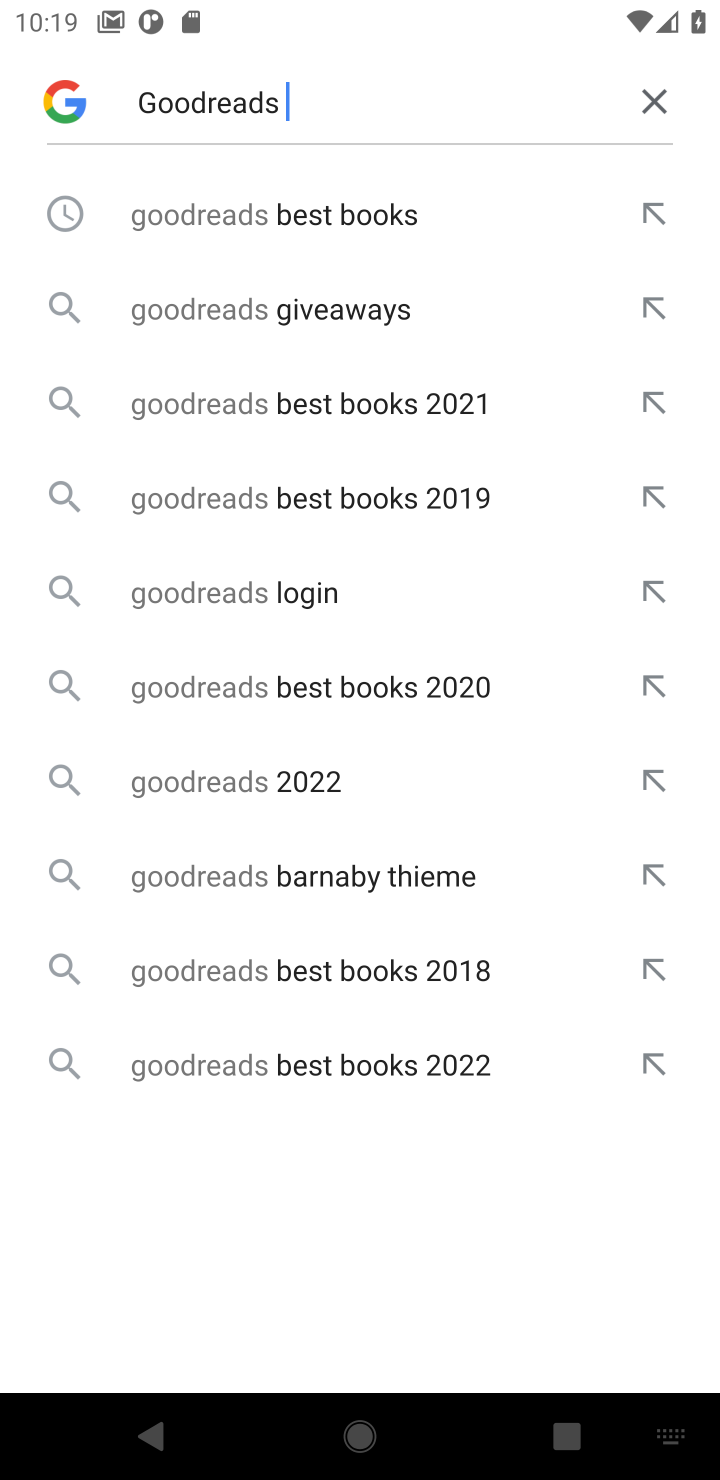
Step 29: click (279, 218)
Your task to perform on an android device: Search for the best books of all time on Goodreads Image 30: 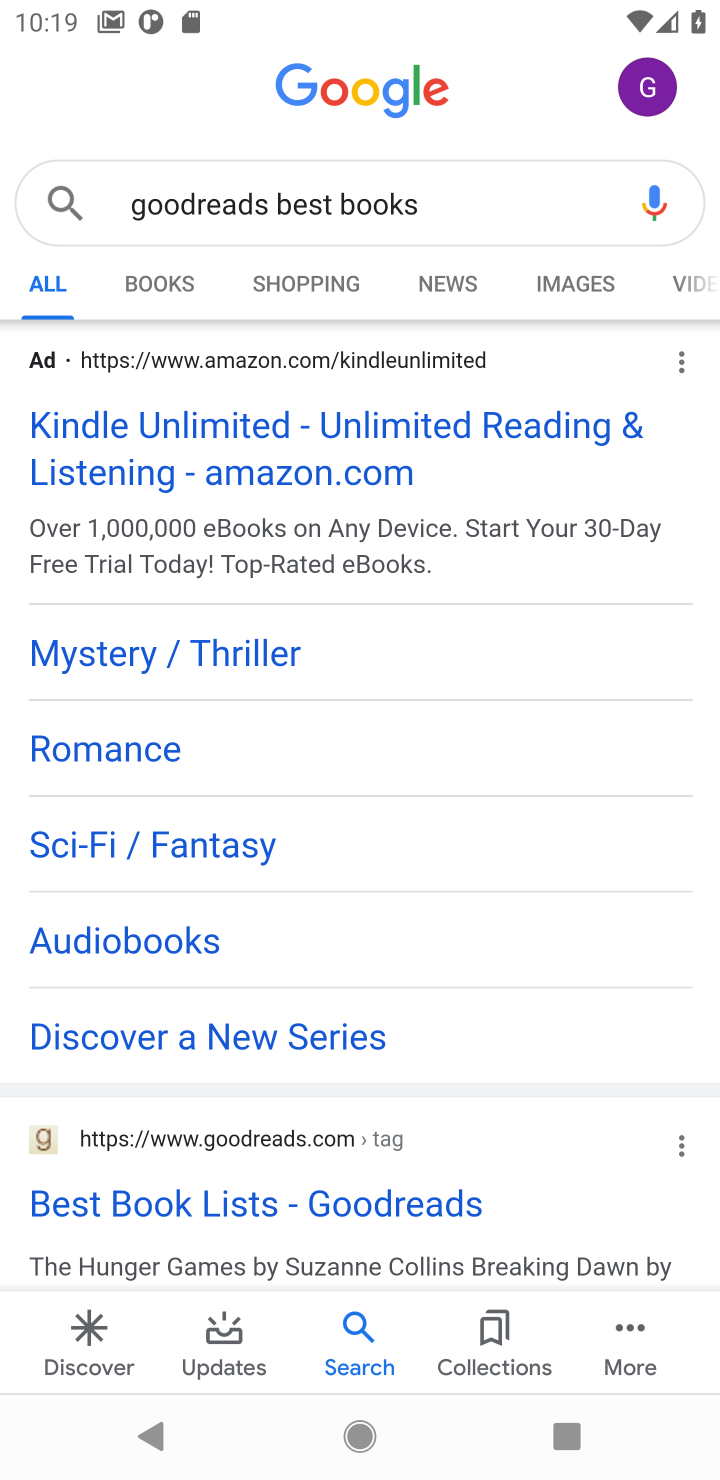
Step 30: drag from (143, 971) to (216, 367)
Your task to perform on an android device: Search for the best books of all time on Goodreads Image 31: 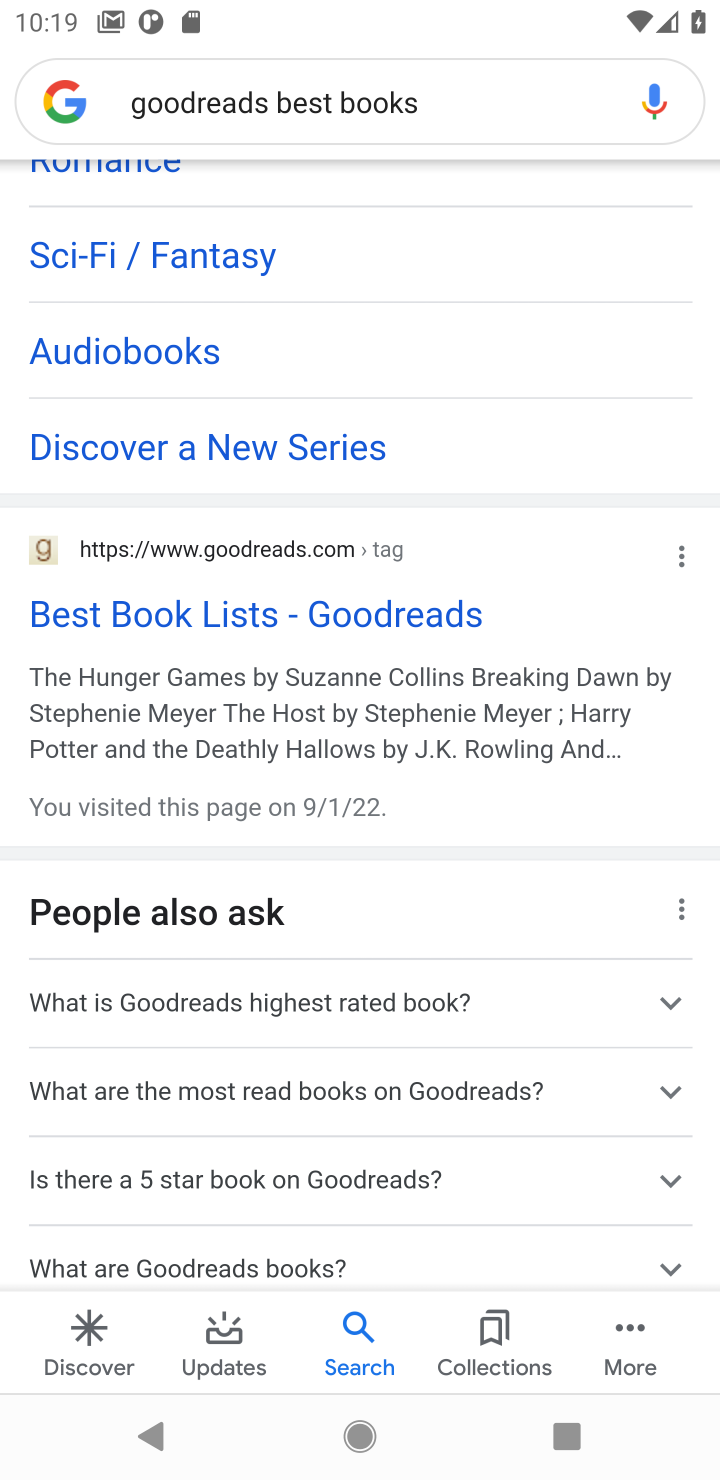
Step 31: click (266, 609)
Your task to perform on an android device: Search for the best books of all time on Goodreads Image 32: 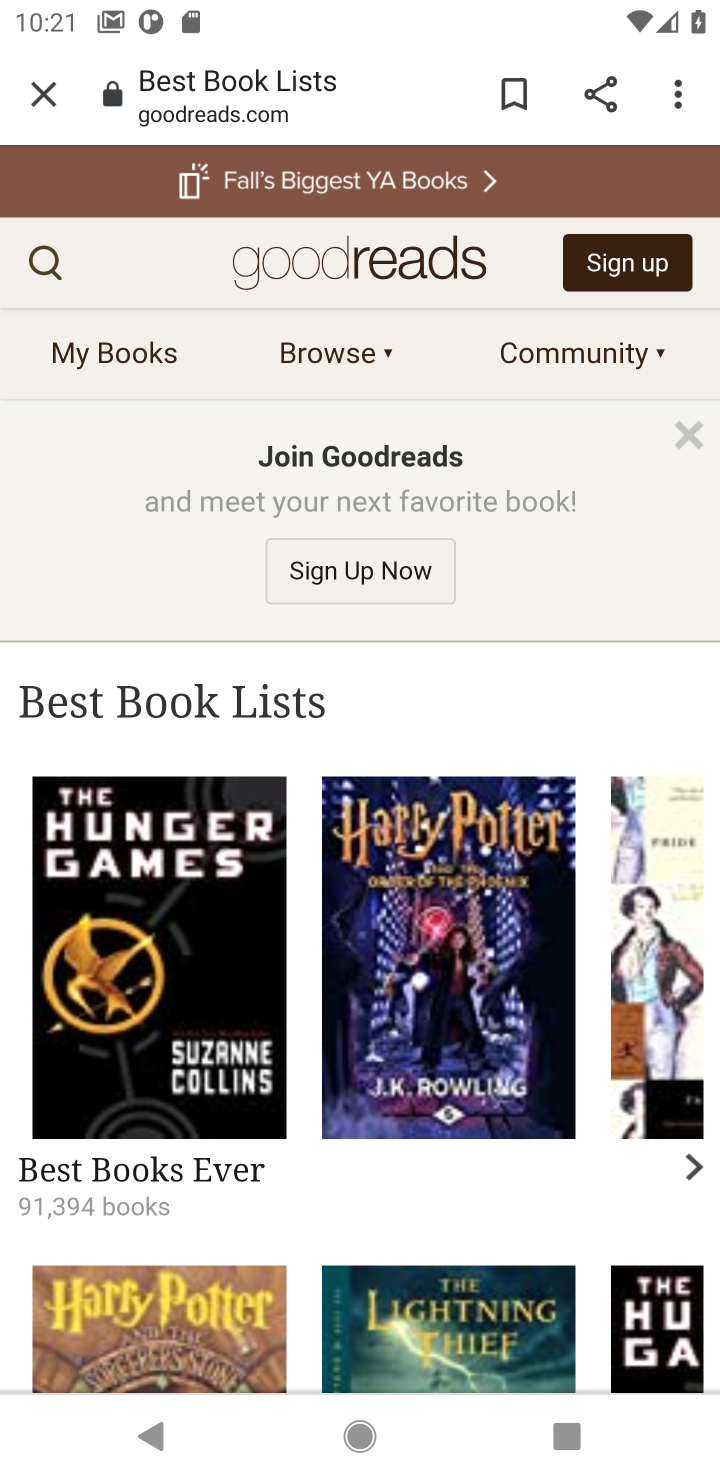
Step 32: task complete